Your task to perform on an android device: Clear the cart on ebay. Search for razer naga on ebay, select the first entry, add it to the cart, then select checkout. Image 0: 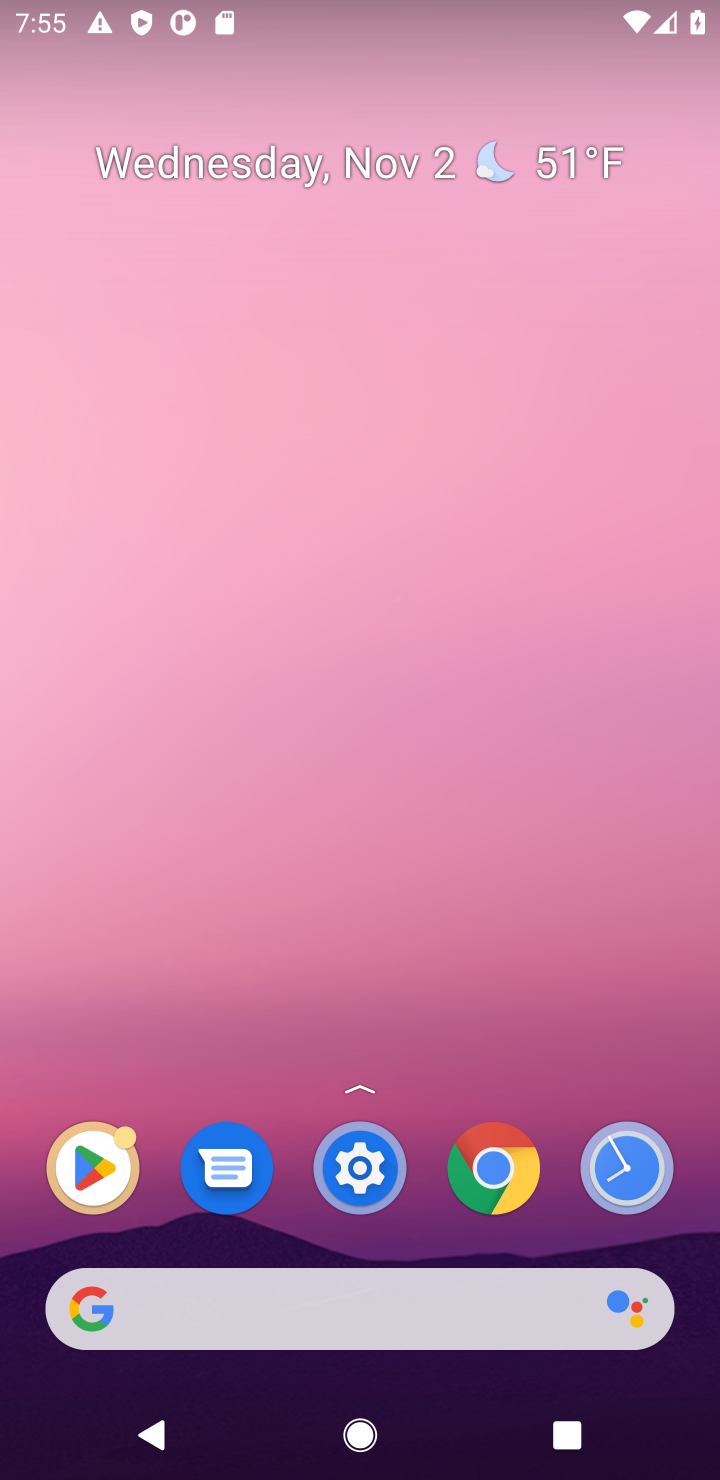
Step 0: click (443, 1295)
Your task to perform on an android device: Clear the cart on ebay. Search for razer naga on ebay, select the first entry, add it to the cart, then select checkout. Image 1: 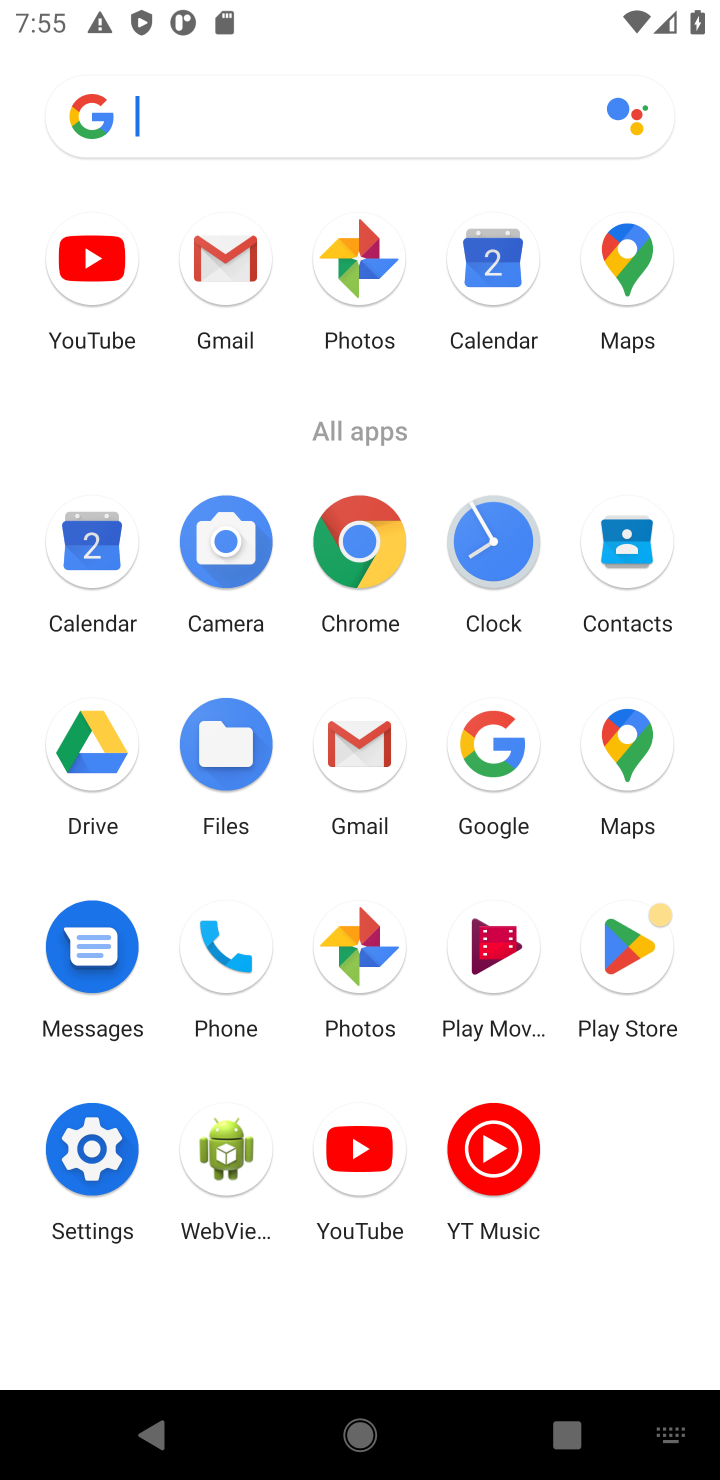
Step 1: type "ebay"
Your task to perform on an android device: Clear the cart on ebay. Search for razer naga on ebay, select the first entry, add it to the cart, then select checkout. Image 2: 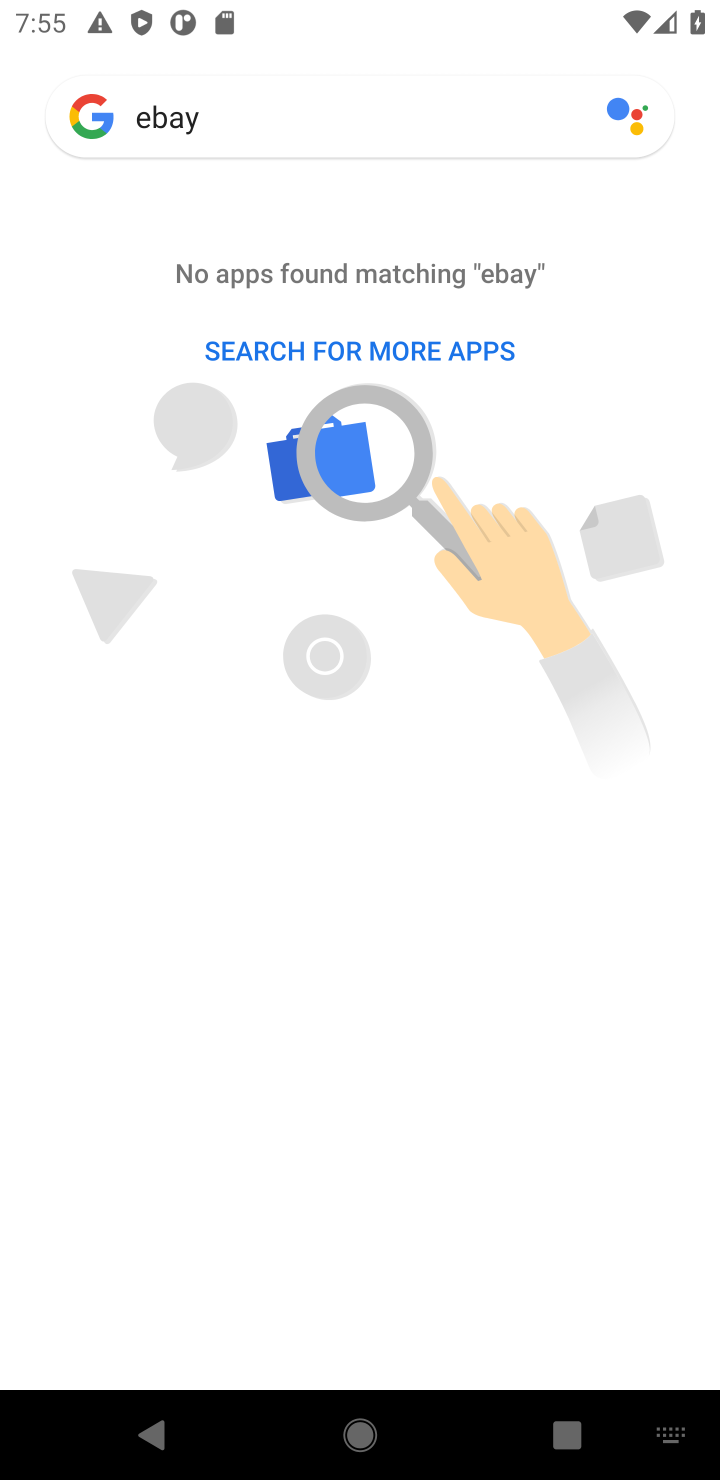
Step 2: type ""
Your task to perform on an android device: Clear the cart on ebay. Search for razer naga on ebay, select the first entry, add it to the cart, then select checkout. Image 3: 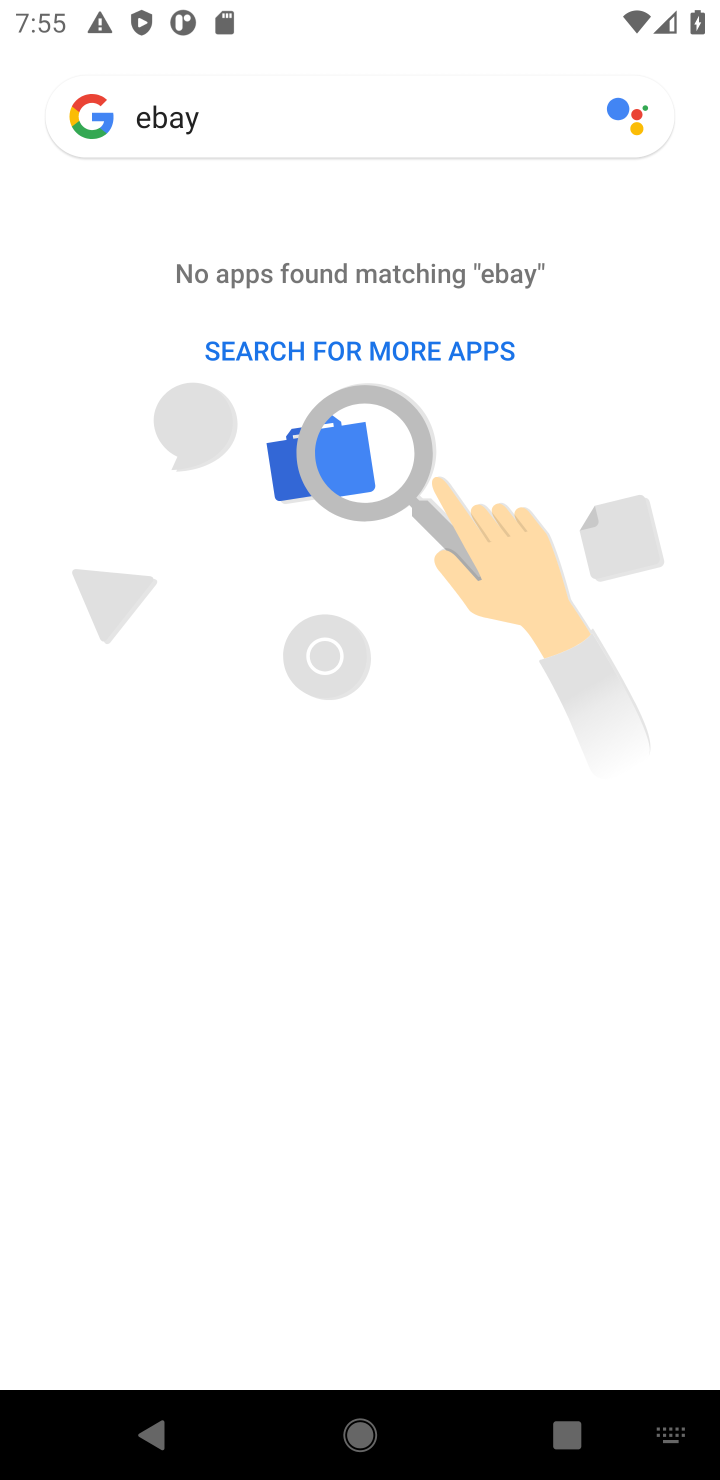
Step 3: press enter
Your task to perform on an android device: Clear the cart on ebay. Search for razer naga on ebay, select the first entry, add it to the cart, then select checkout. Image 4: 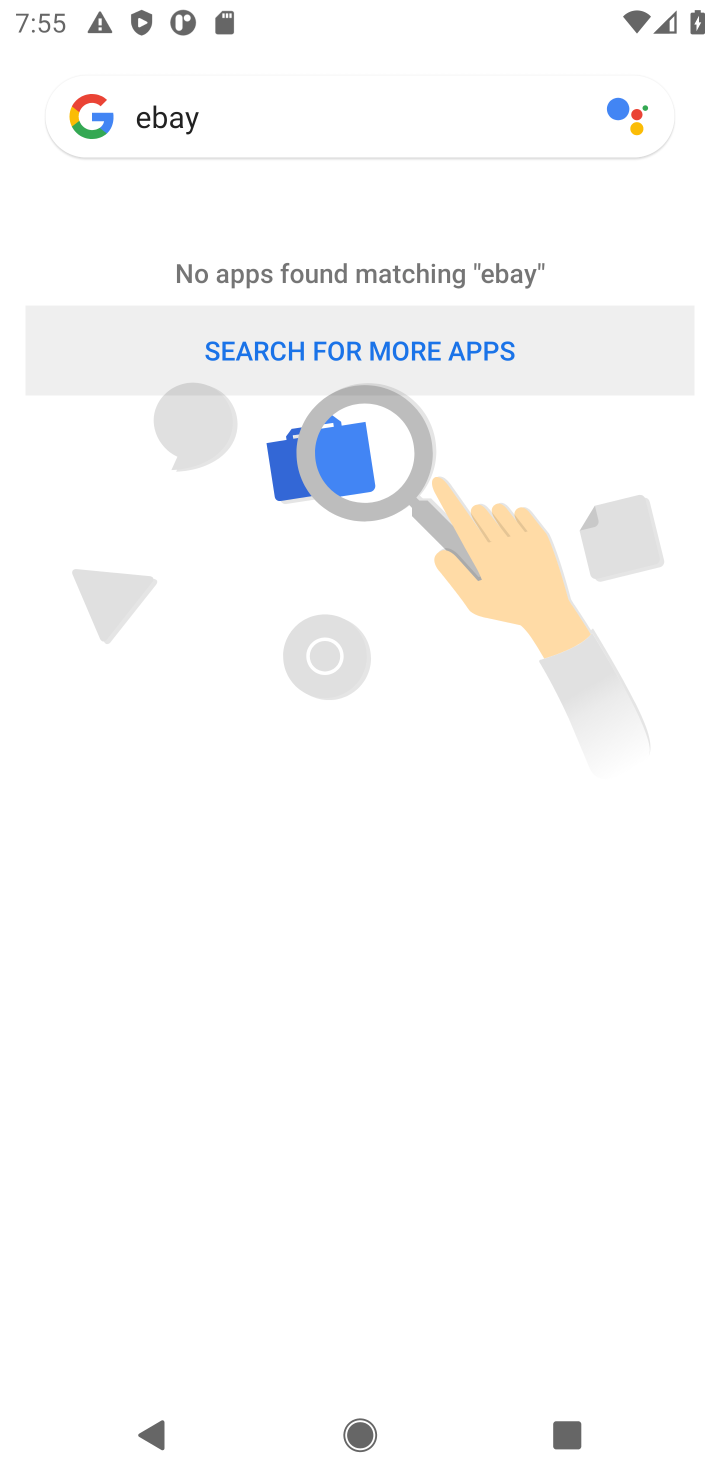
Step 4: press enter
Your task to perform on an android device: Clear the cart on ebay. Search for razer naga on ebay, select the first entry, add it to the cart, then select checkout. Image 5: 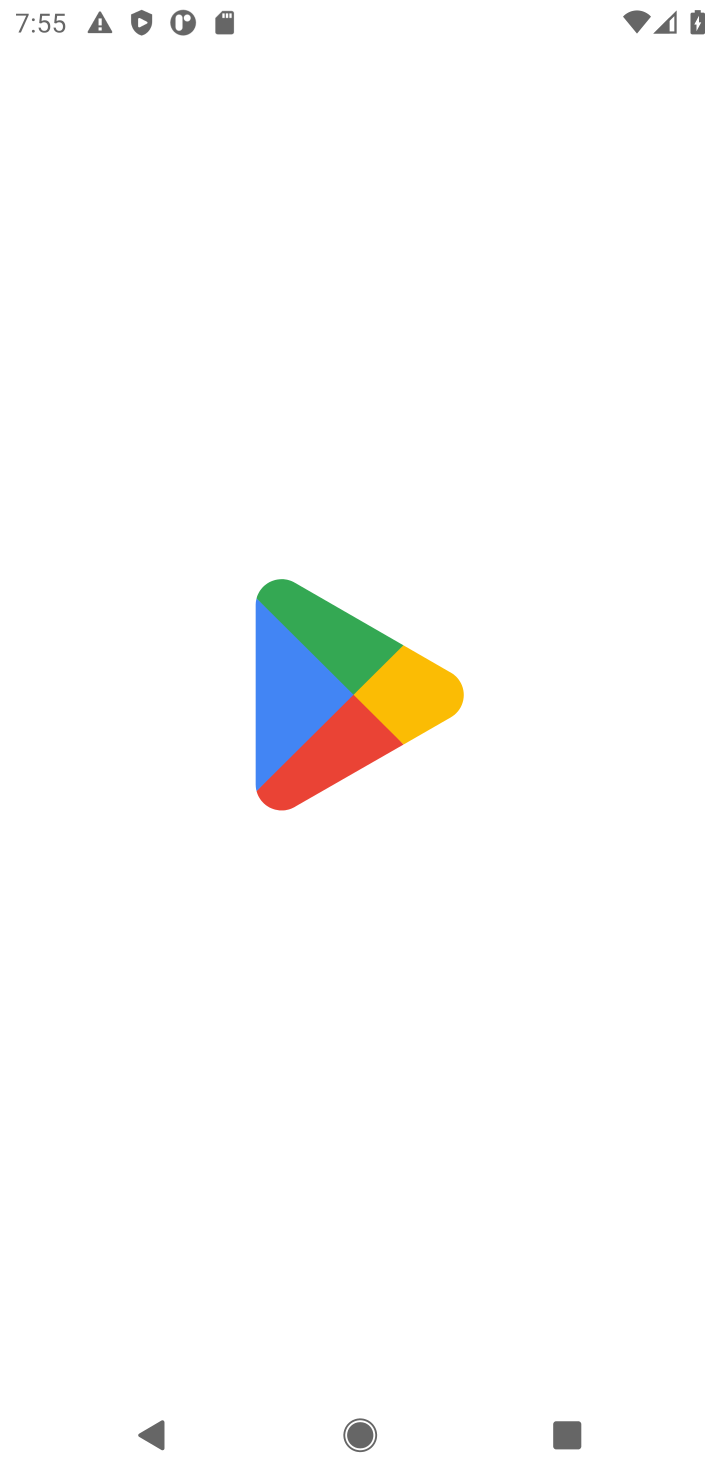
Step 5: press enter
Your task to perform on an android device: Clear the cart on ebay. Search for razer naga on ebay, select the first entry, add it to the cart, then select checkout. Image 6: 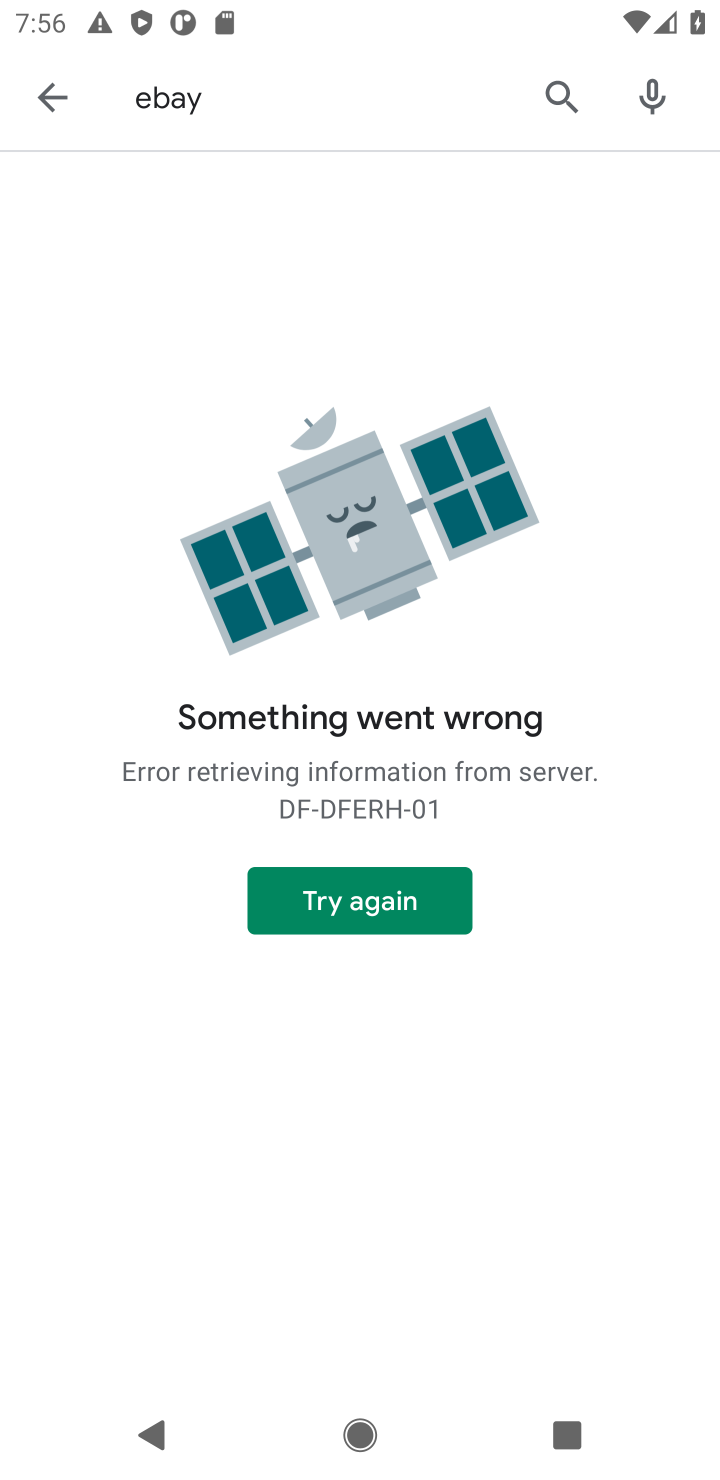
Step 6: press home button
Your task to perform on an android device: Clear the cart on ebay. Search for razer naga on ebay, select the first entry, add it to the cart, then select checkout. Image 7: 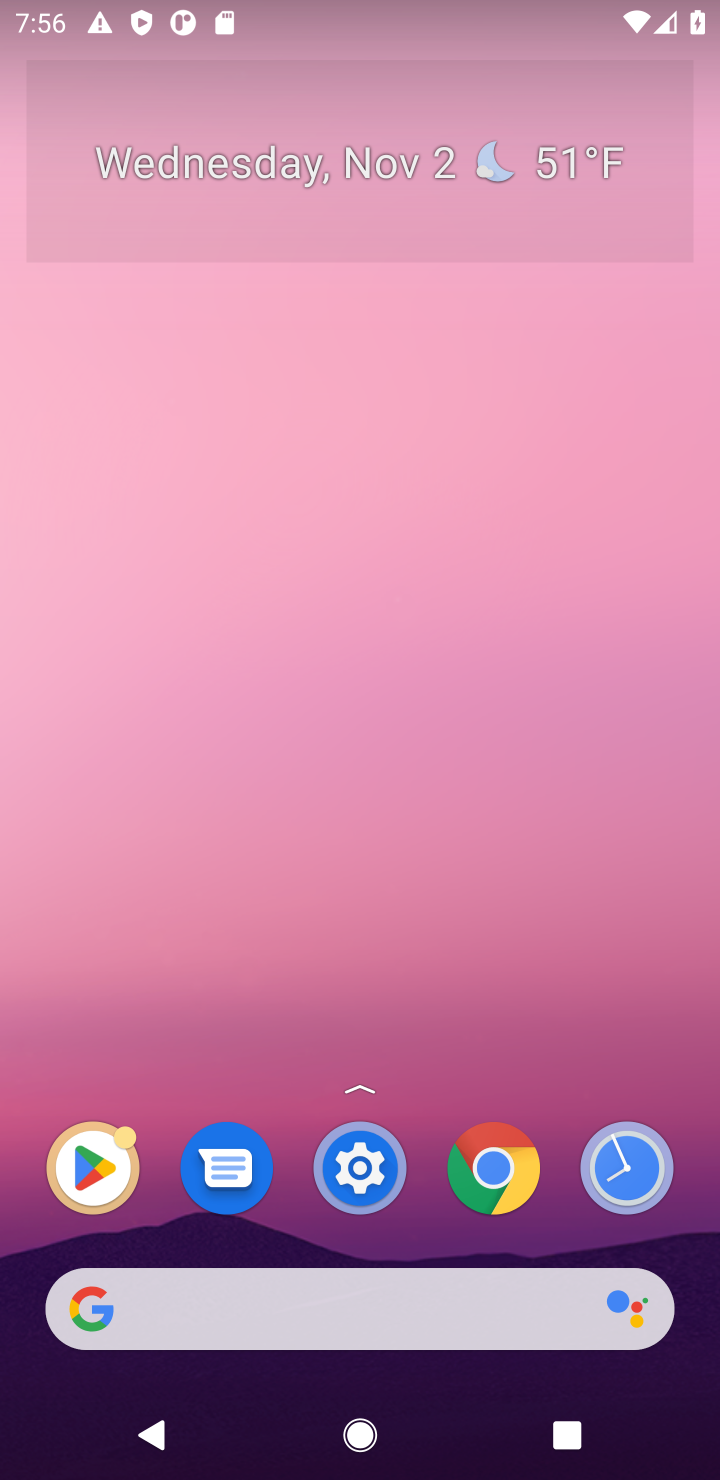
Step 7: click (280, 1294)
Your task to perform on an android device: Clear the cart on ebay. Search for razer naga on ebay, select the first entry, add it to the cart, then select checkout. Image 8: 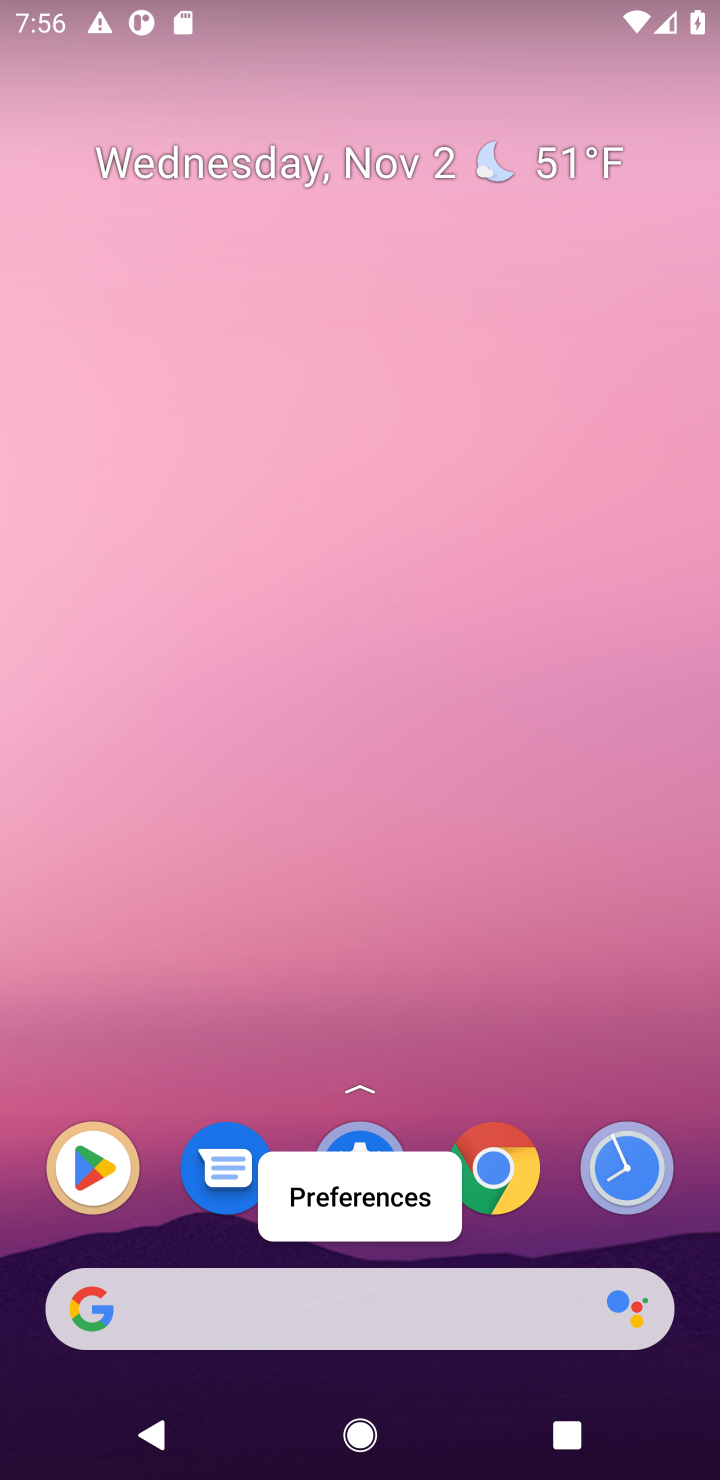
Step 8: click (277, 1307)
Your task to perform on an android device: Clear the cart on ebay. Search for razer naga on ebay, select the first entry, add it to the cart, then select checkout. Image 9: 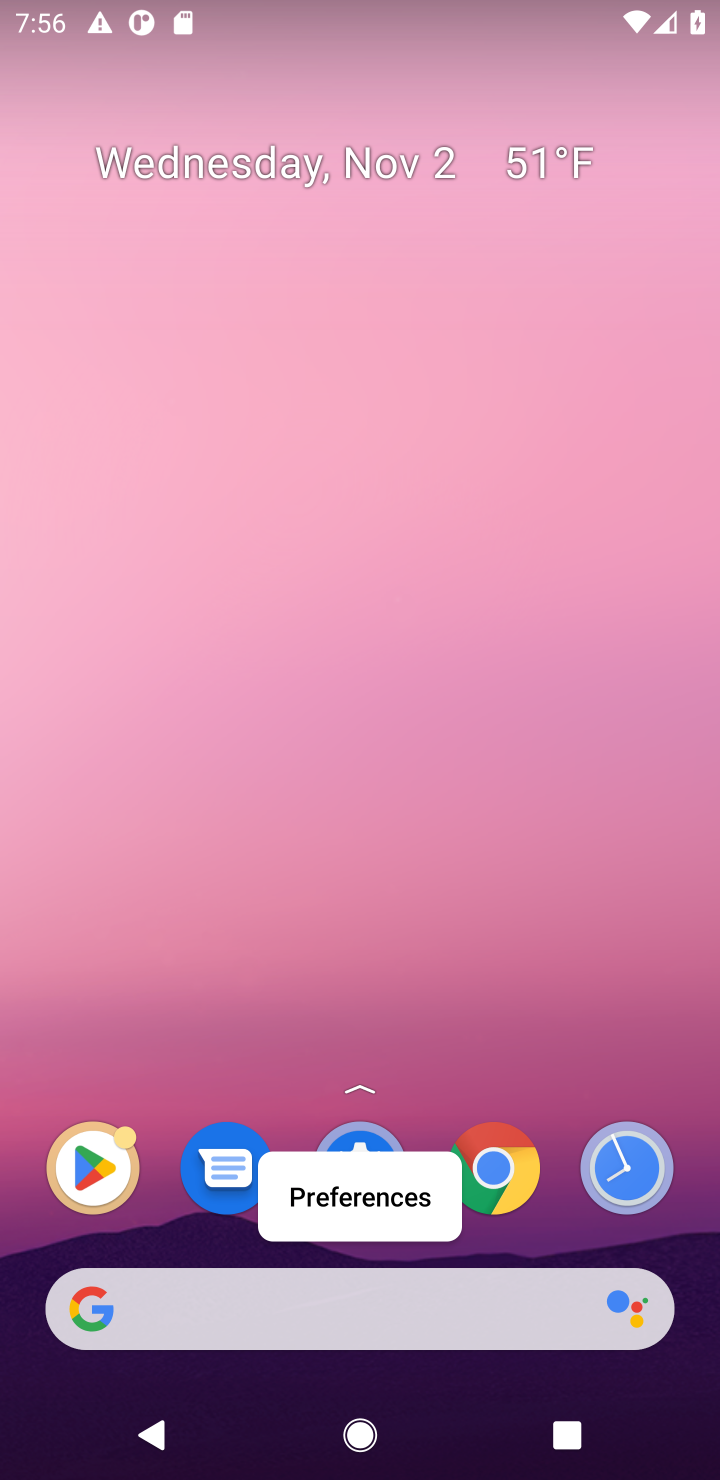
Step 9: click (277, 1307)
Your task to perform on an android device: Clear the cart on ebay. Search for razer naga on ebay, select the first entry, add it to the cart, then select checkout. Image 10: 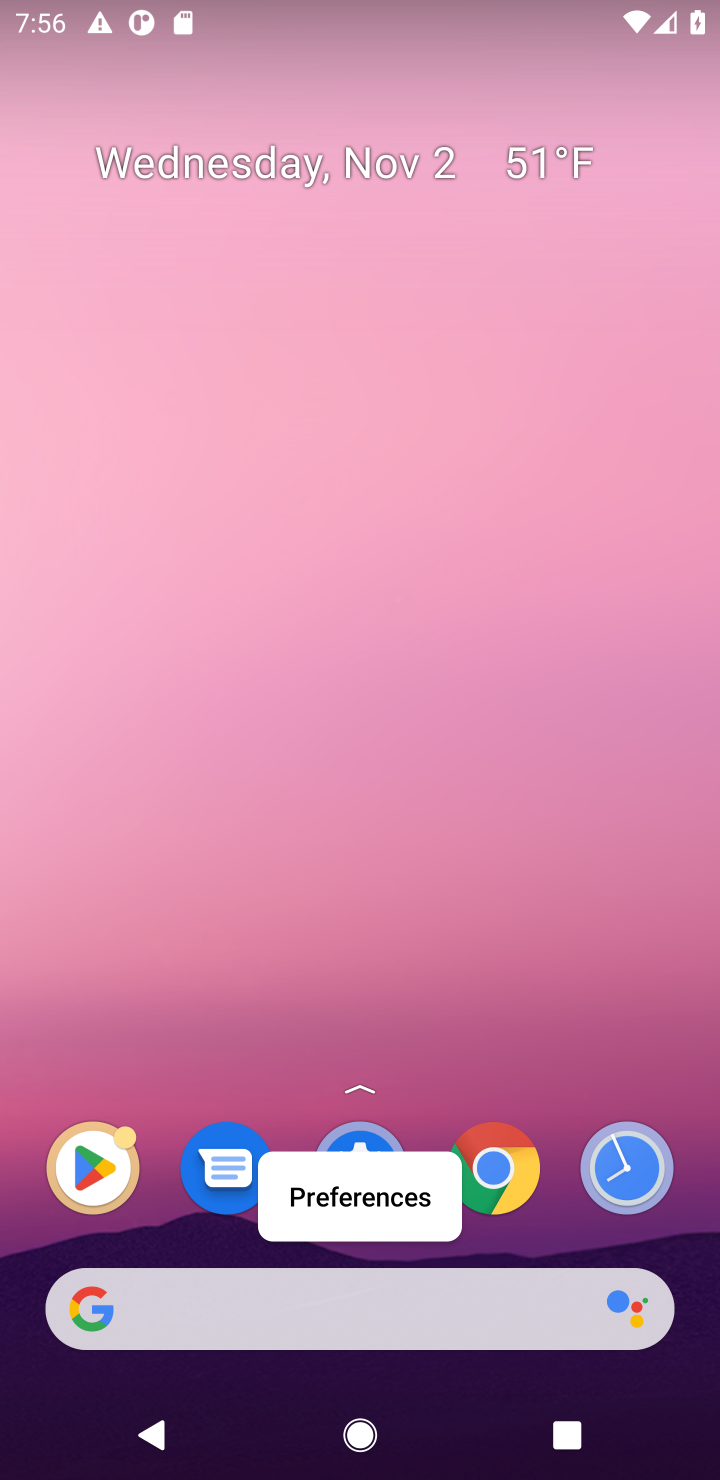
Step 10: click (277, 1307)
Your task to perform on an android device: Clear the cart on ebay. Search for razer naga on ebay, select the first entry, add it to the cart, then select checkout. Image 11: 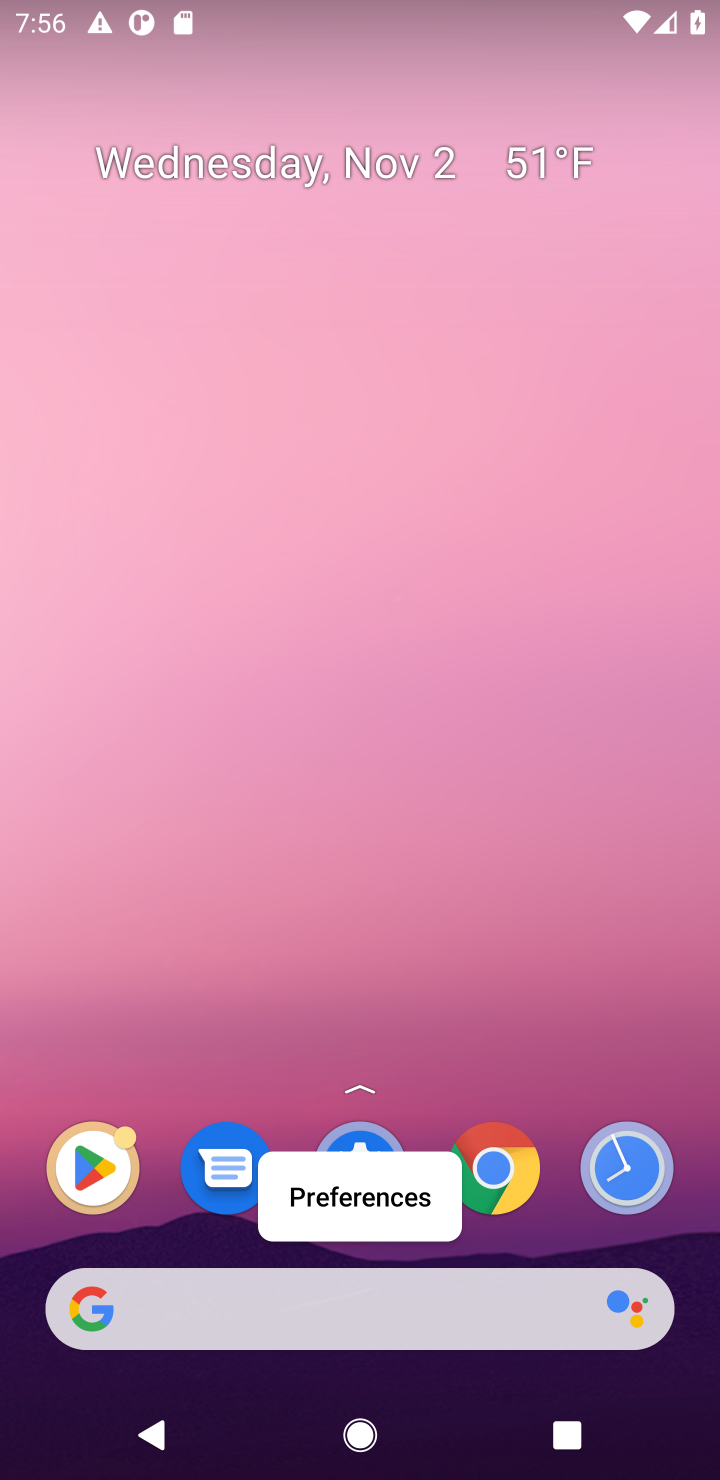
Step 11: click (277, 1307)
Your task to perform on an android device: Clear the cart on ebay. Search for razer naga on ebay, select the first entry, add it to the cart, then select checkout. Image 12: 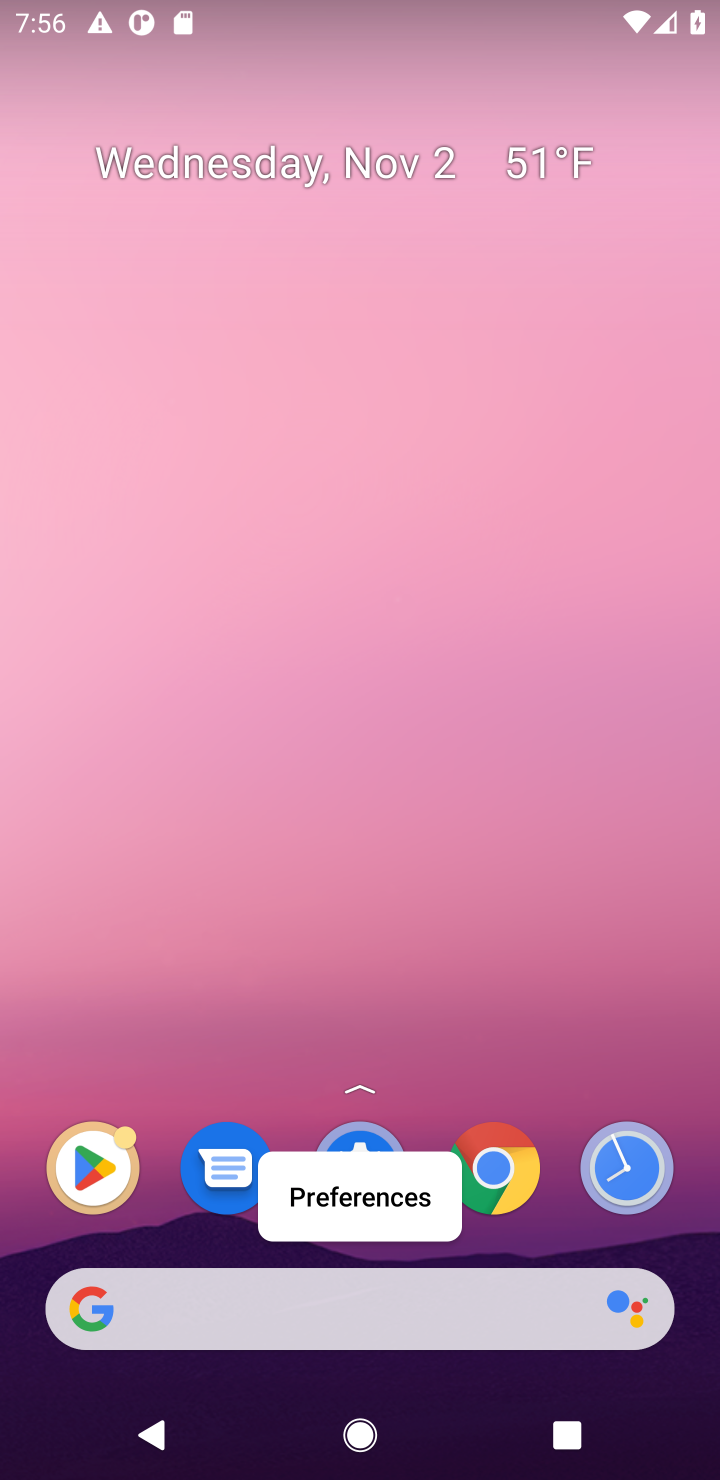
Step 12: click (277, 1307)
Your task to perform on an android device: Clear the cart on ebay. Search for razer naga on ebay, select the first entry, add it to the cart, then select checkout. Image 13: 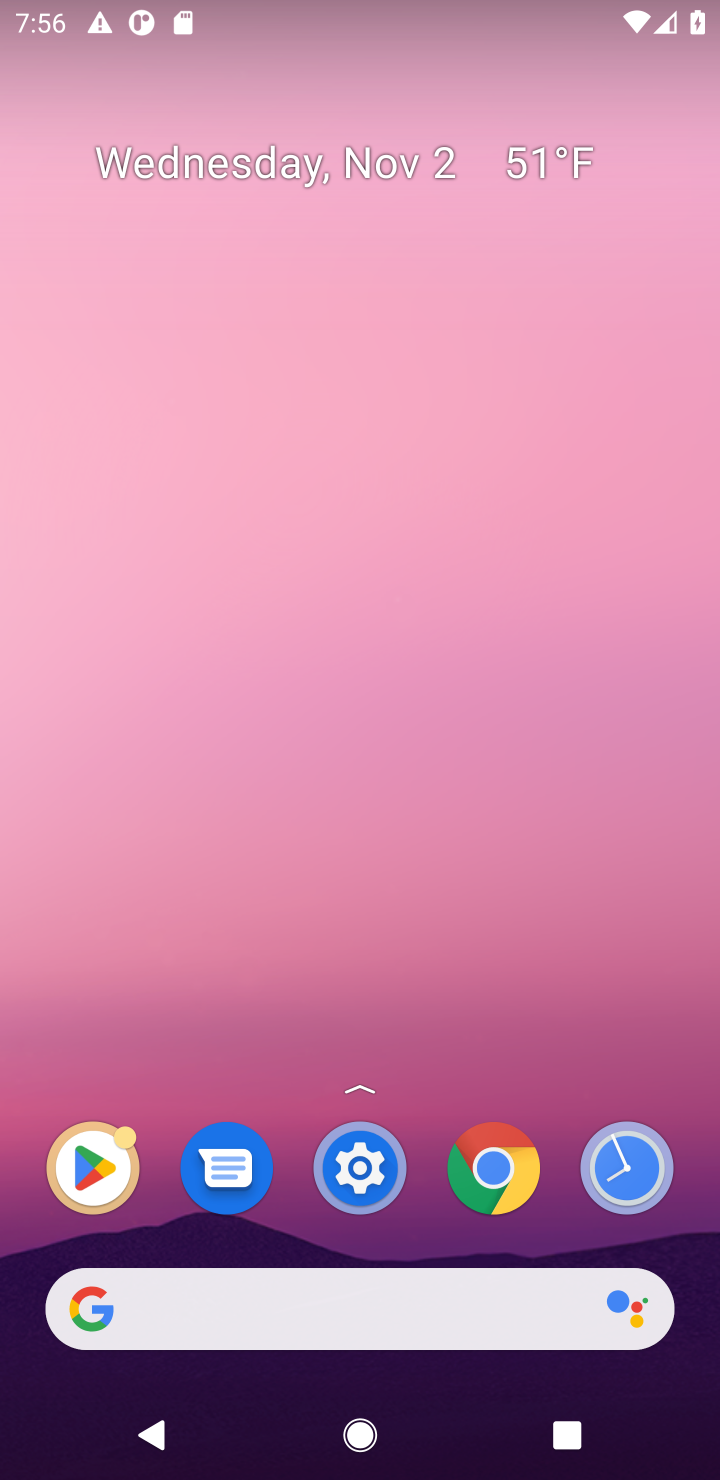
Step 13: click (275, 1309)
Your task to perform on an android device: Clear the cart on ebay. Search for razer naga on ebay, select the first entry, add it to the cart, then select checkout. Image 14: 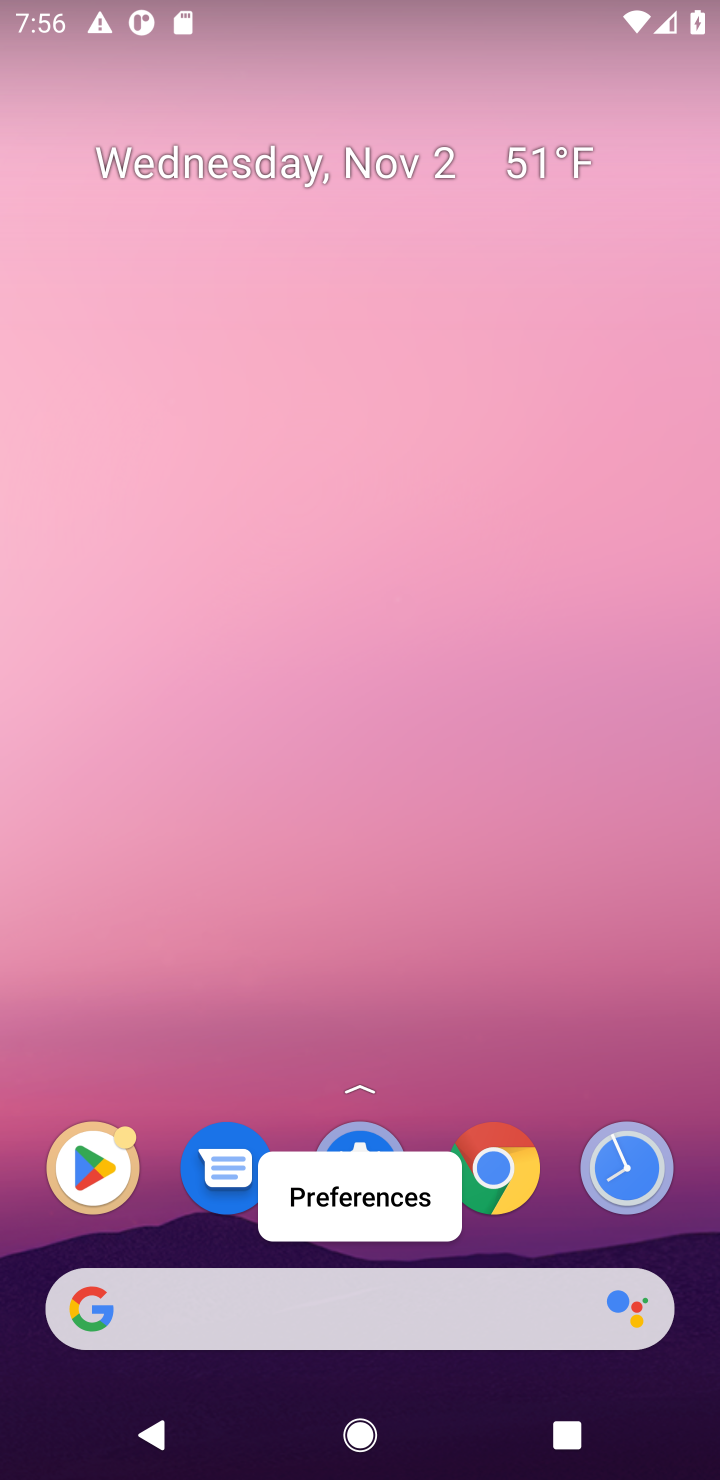
Step 14: click (468, 1164)
Your task to perform on an android device: Clear the cart on ebay. Search for razer naga on ebay, select the first entry, add it to the cart, then select checkout. Image 15: 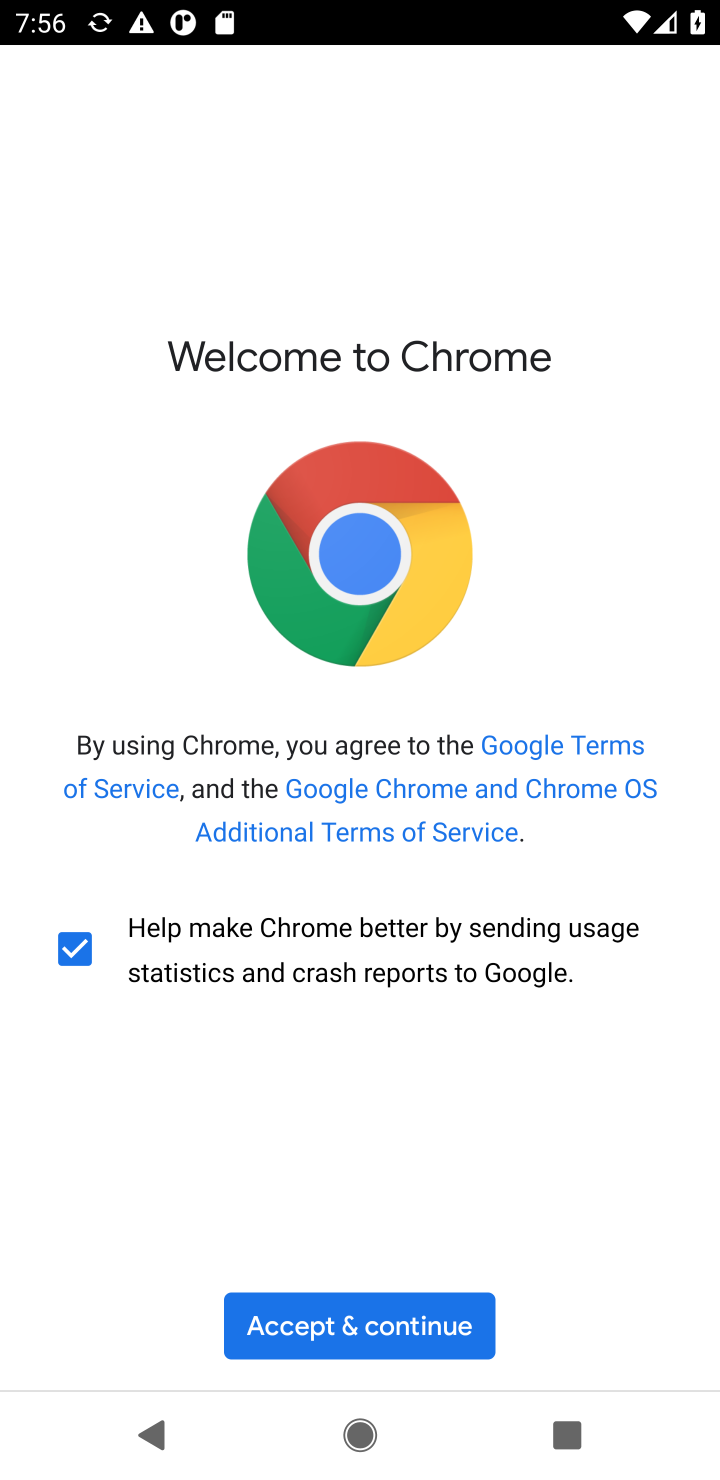
Step 15: click (458, 1310)
Your task to perform on an android device: Clear the cart on ebay. Search for razer naga on ebay, select the first entry, add it to the cart, then select checkout. Image 16: 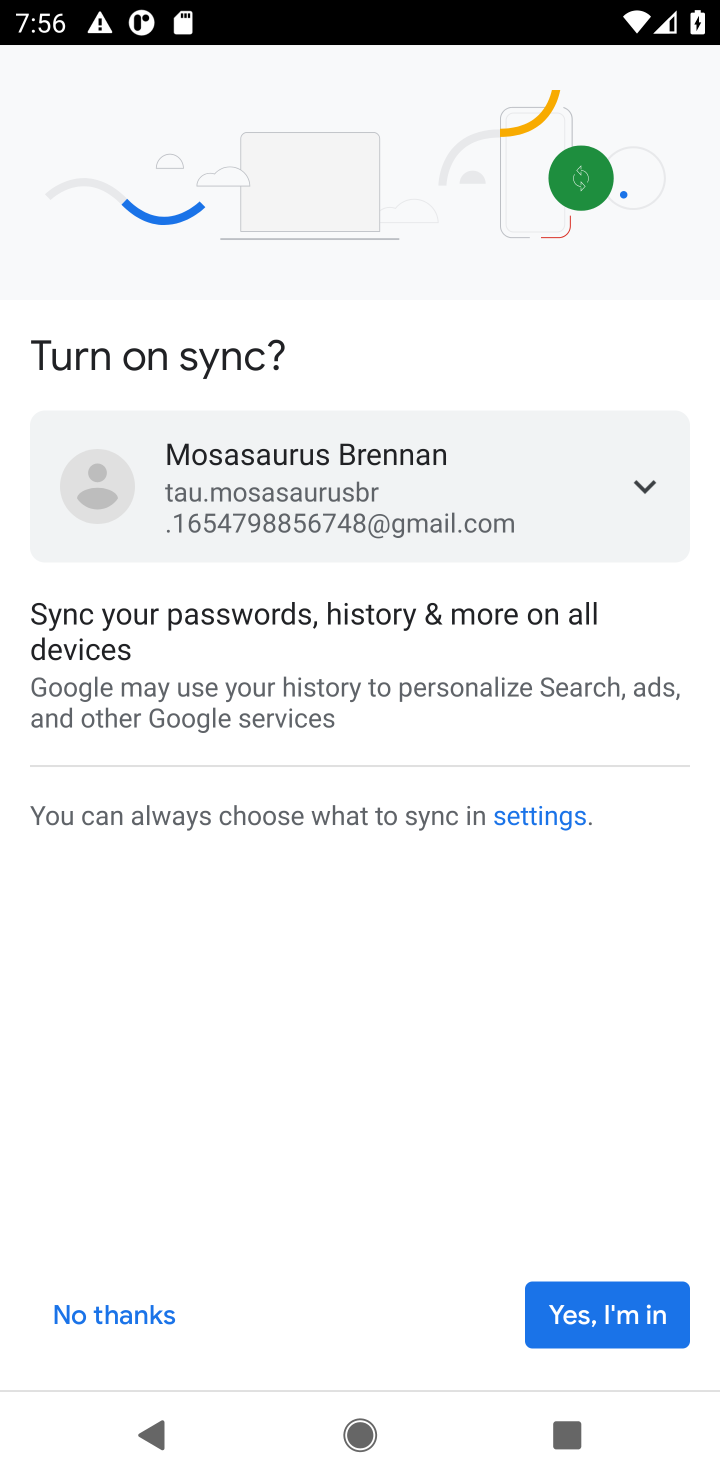
Step 16: click (577, 1305)
Your task to perform on an android device: Clear the cart on ebay. Search for razer naga on ebay, select the first entry, add it to the cart, then select checkout. Image 17: 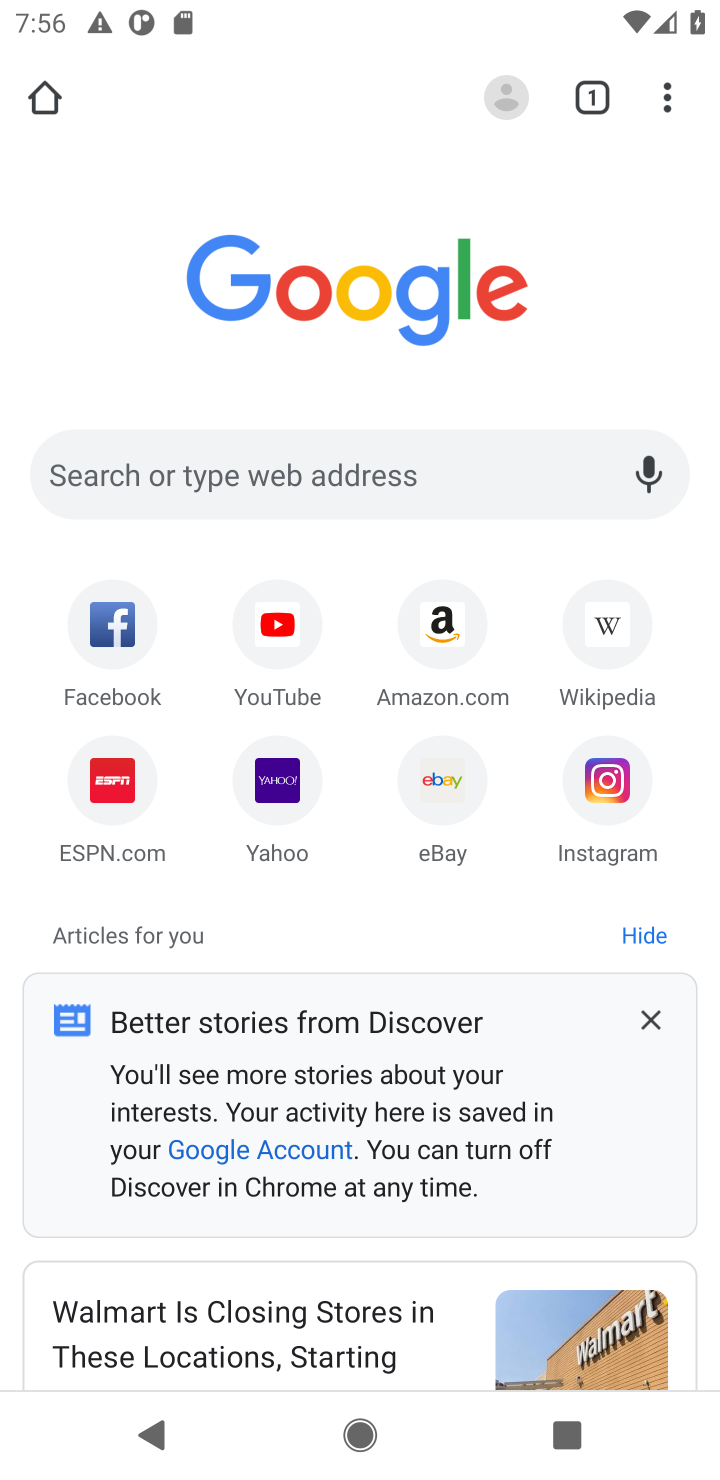
Step 17: click (274, 490)
Your task to perform on an android device: Clear the cart on ebay. Search for razer naga on ebay, select the first entry, add it to the cart, then select checkout. Image 18: 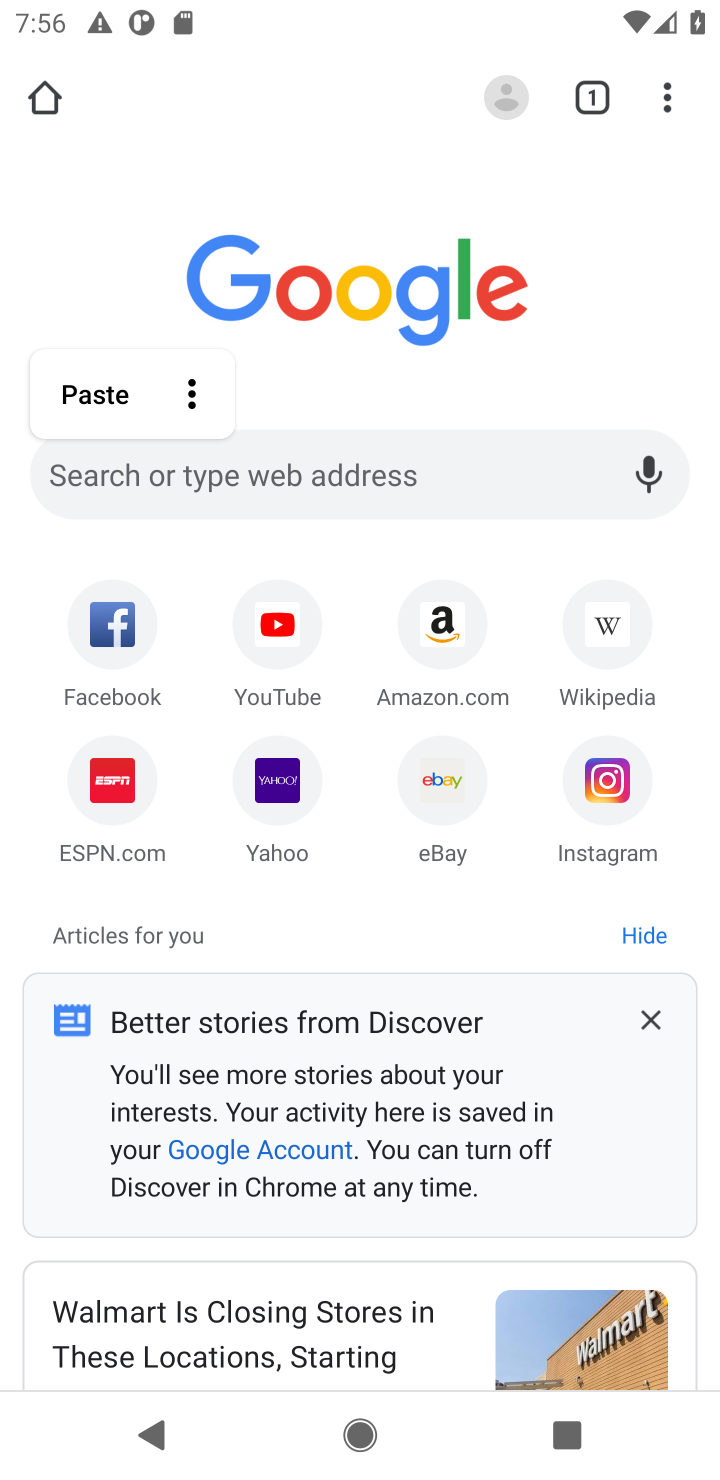
Step 18: type "ebay"
Your task to perform on an android device: Clear the cart on ebay. Search for razer naga on ebay, select the first entry, add it to the cart, then select checkout. Image 19: 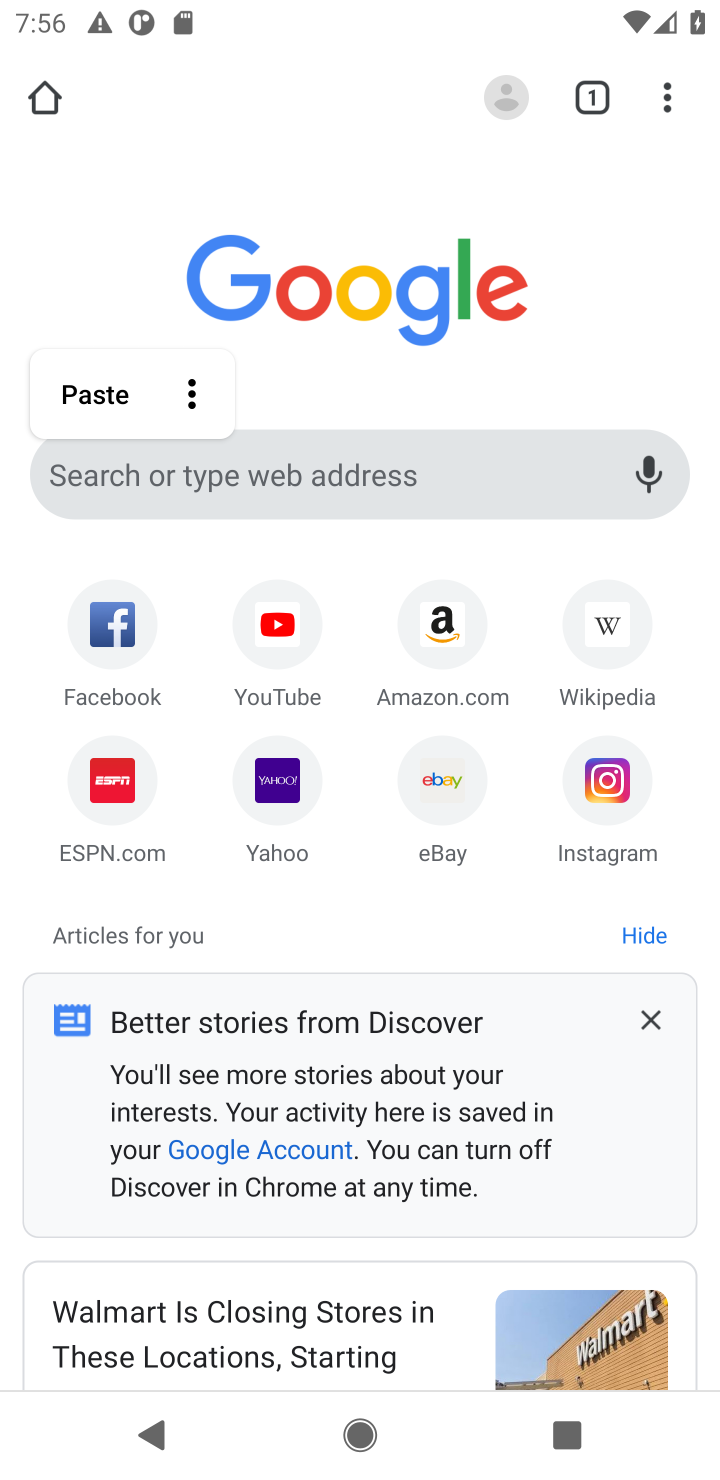
Step 19: type ""
Your task to perform on an android device: Clear the cart on ebay. Search for razer naga on ebay, select the first entry, add it to the cart, then select checkout. Image 20: 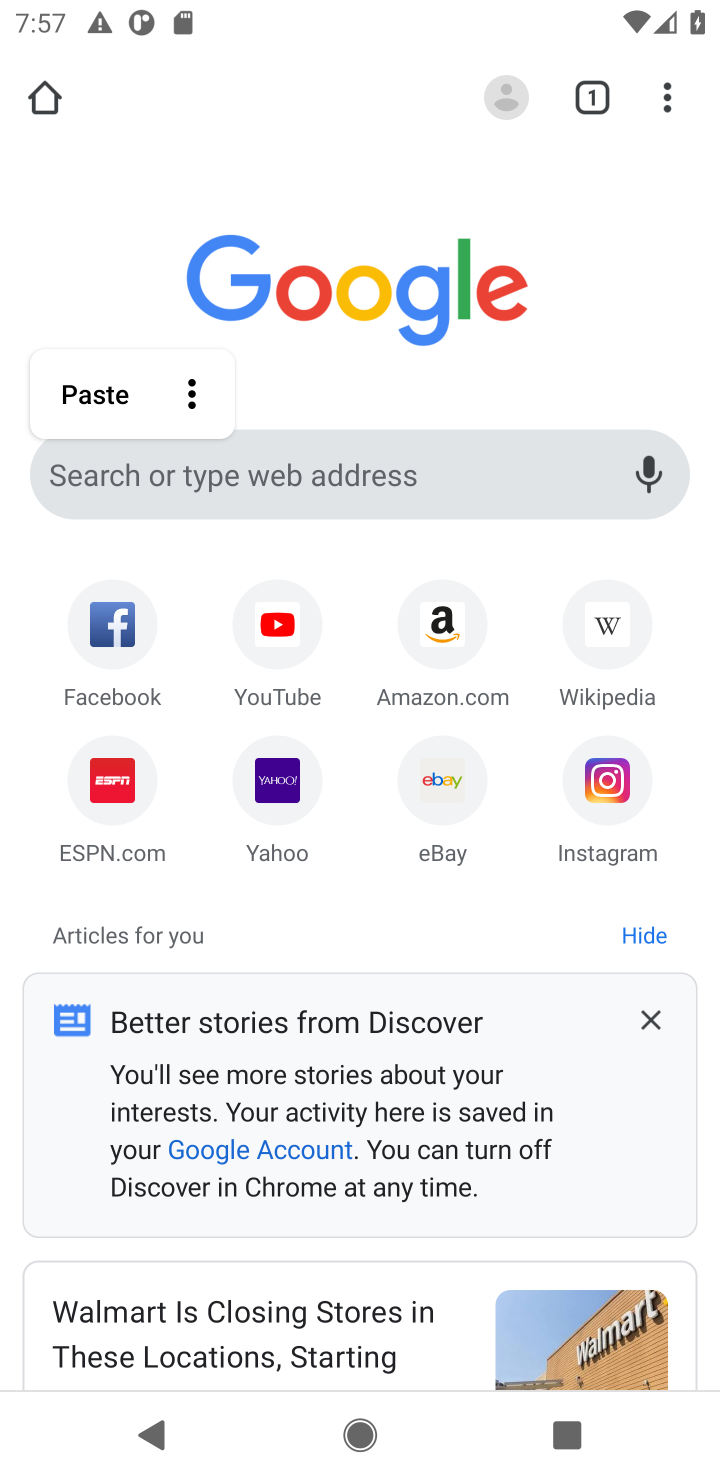
Step 20: type ""
Your task to perform on an android device: Clear the cart on ebay. Search for razer naga on ebay, select the first entry, add it to the cart, then select checkout. Image 21: 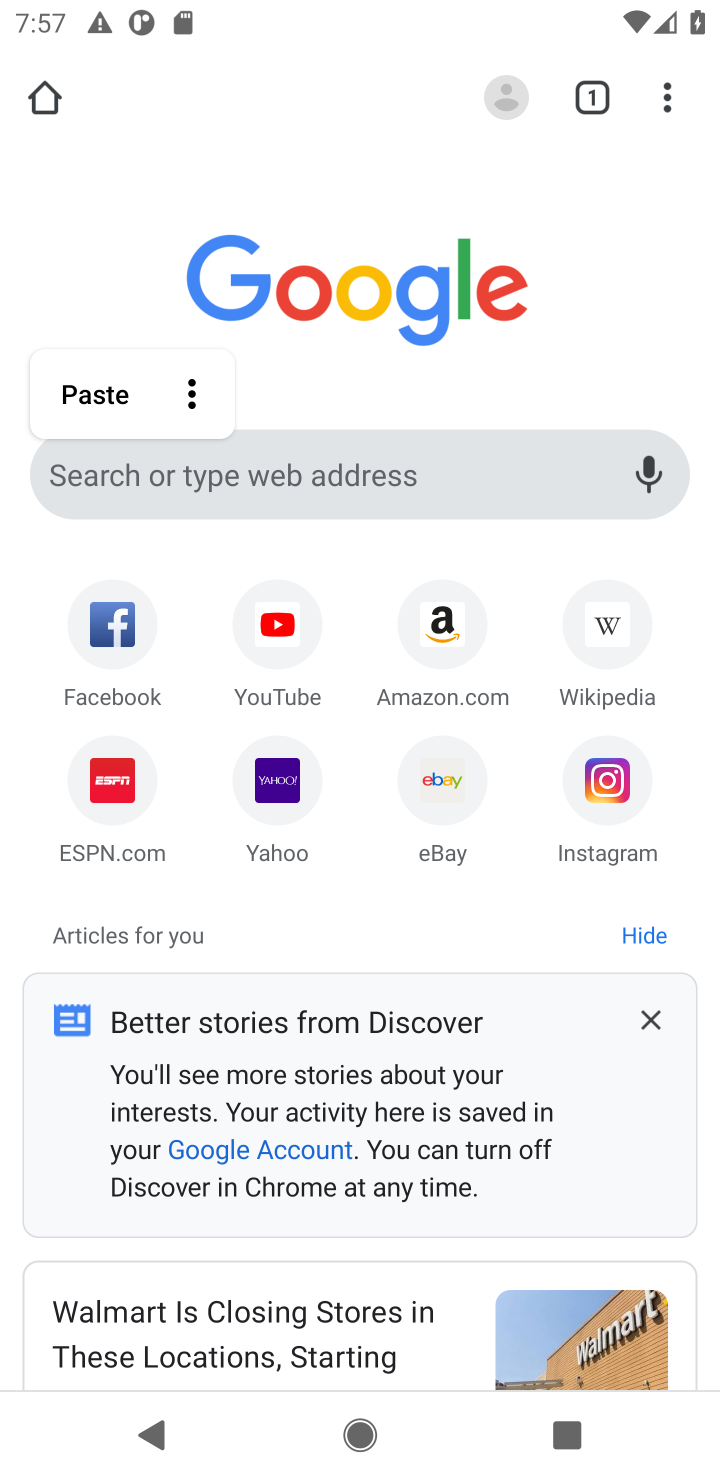
Step 21: press enter
Your task to perform on an android device: Clear the cart on ebay. Search for razer naga on ebay, select the first entry, add it to the cart, then select checkout. Image 22: 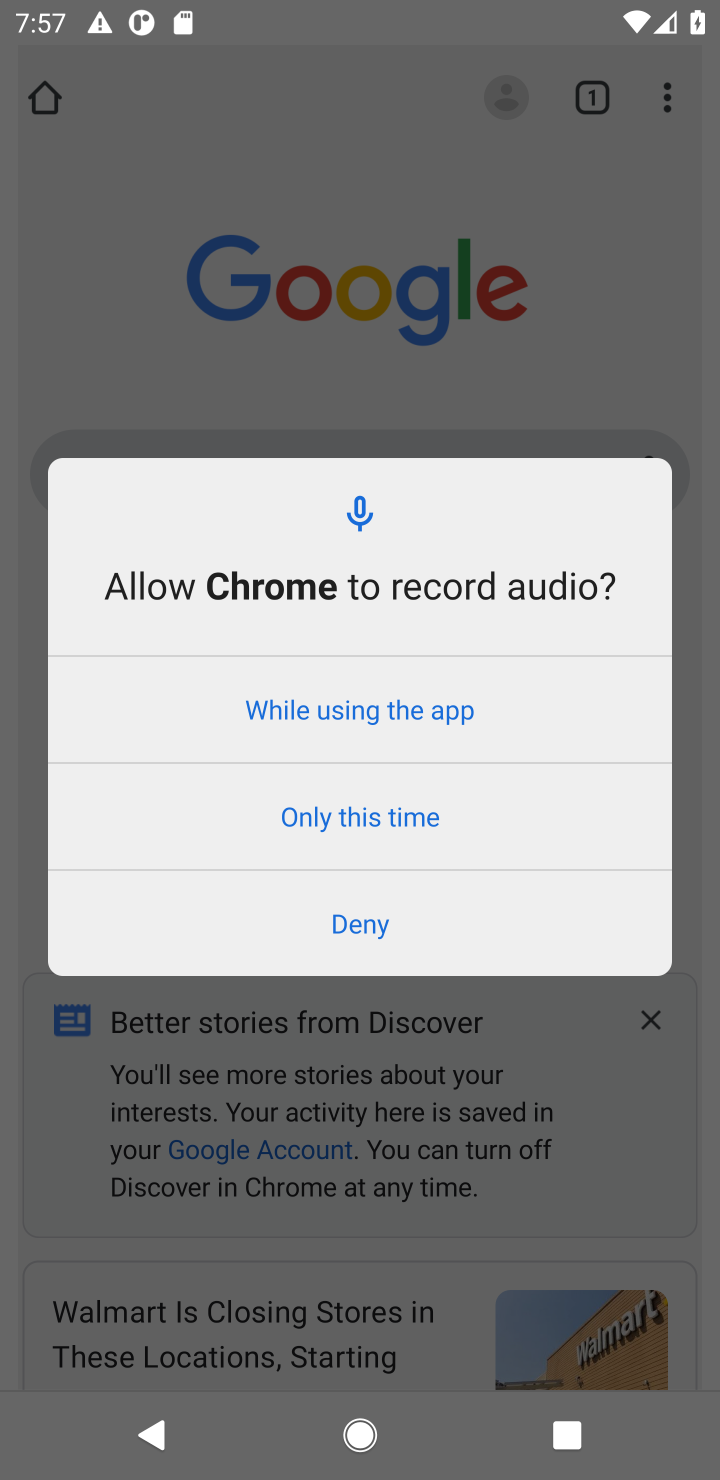
Step 22: click (375, 942)
Your task to perform on an android device: Clear the cart on ebay. Search for razer naga on ebay, select the first entry, add it to the cart, then select checkout. Image 23: 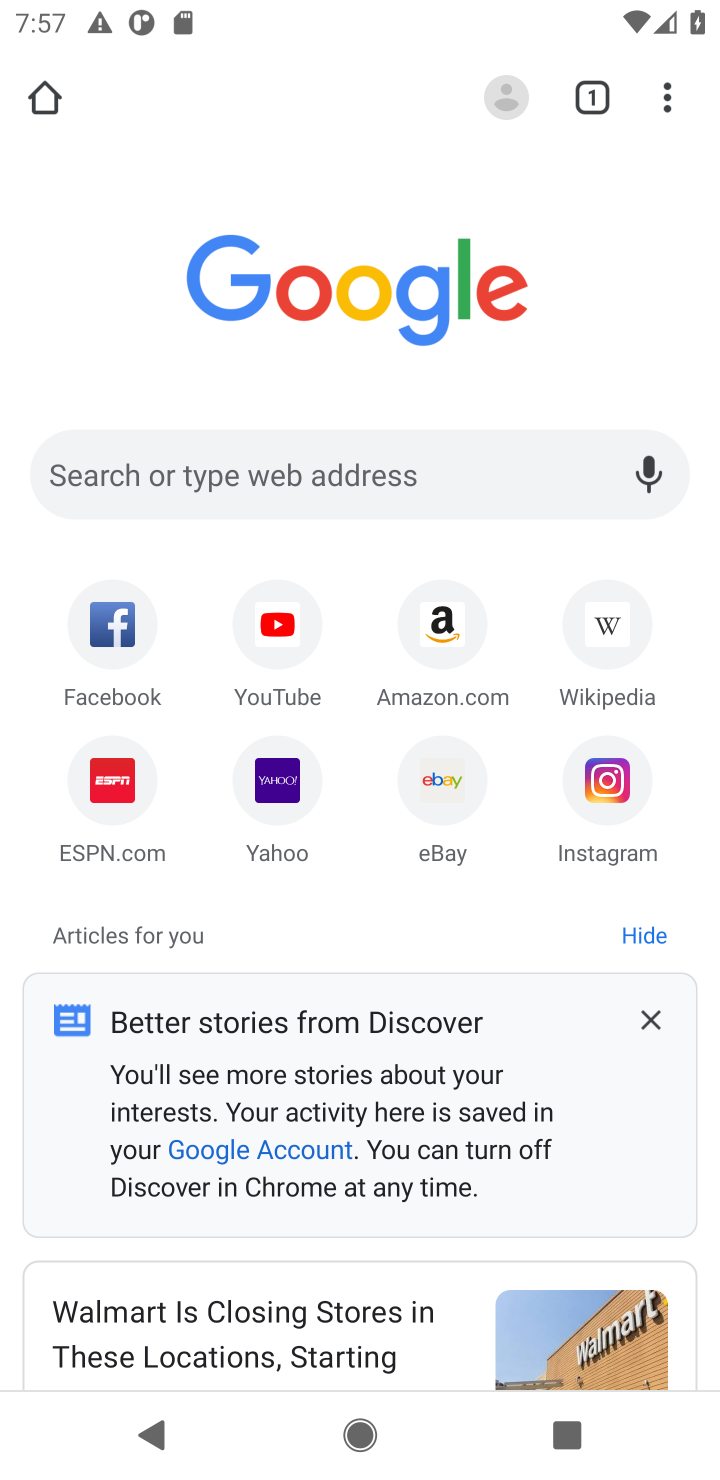
Step 23: click (97, 467)
Your task to perform on an android device: Clear the cart on ebay. Search for razer naga on ebay, select the first entry, add it to the cart, then select checkout. Image 24: 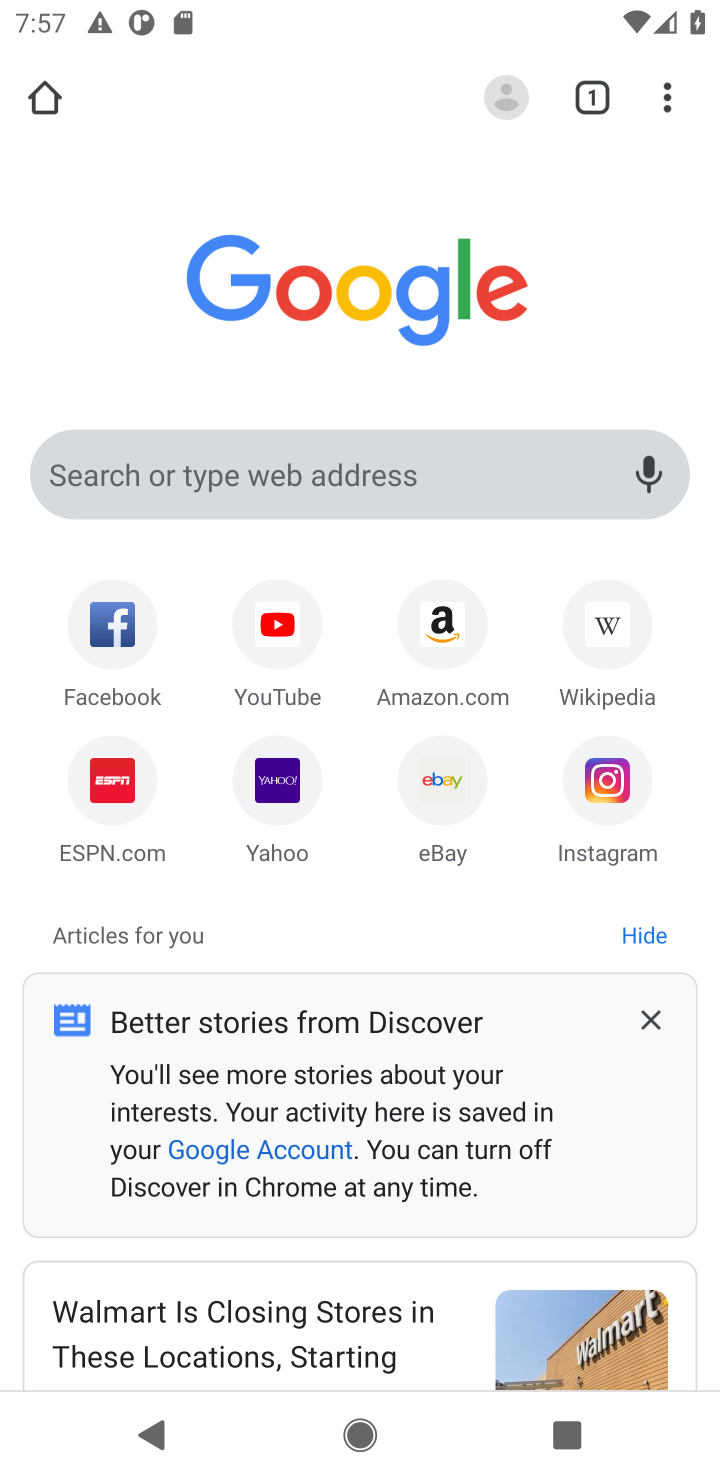
Step 24: click (97, 467)
Your task to perform on an android device: Clear the cart on ebay. Search for razer naga on ebay, select the first entry, add it to the cart, then select checkout. Image 25: 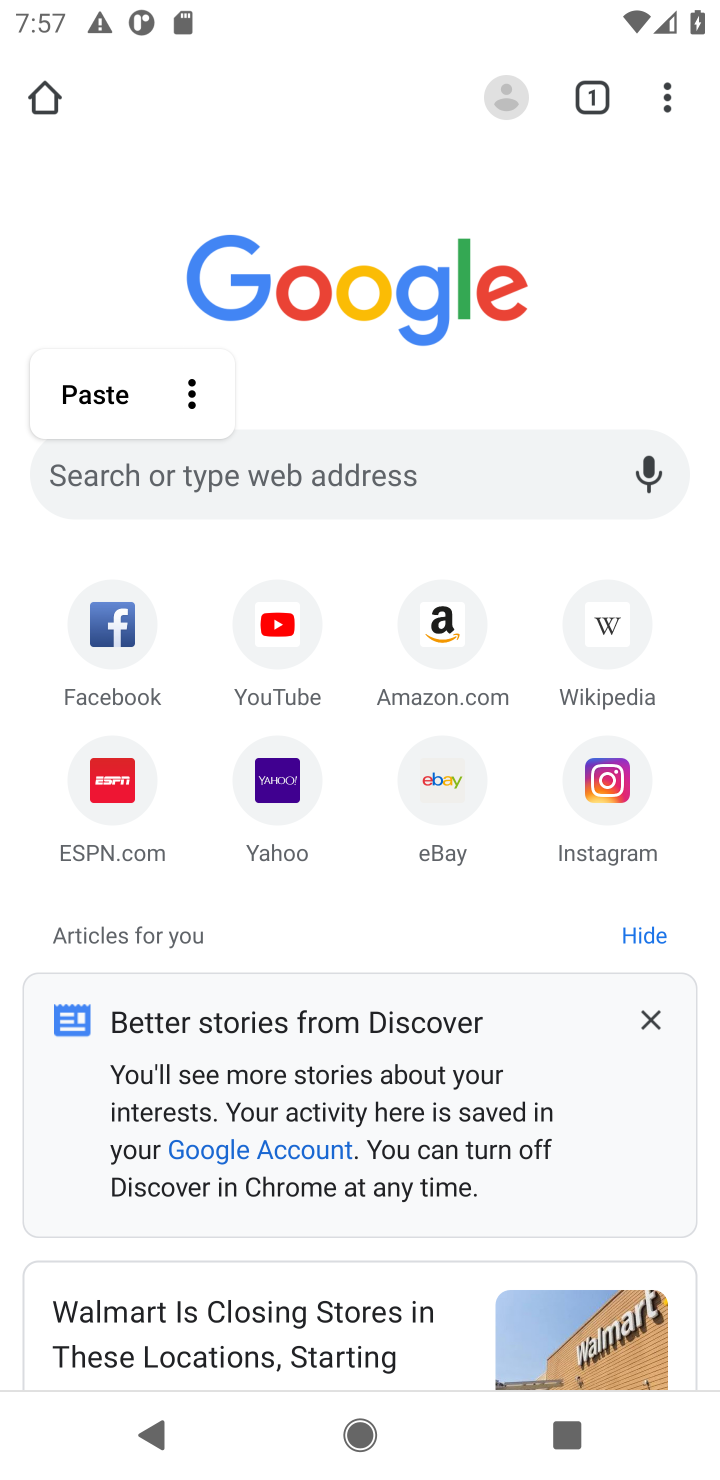
Step 25: type "ebay"
Your task to perform on an android device: Clear the cart on ebay. Search for razer naga on ebay, select the first entry, add it to the cart, then select checkout. Image 26: 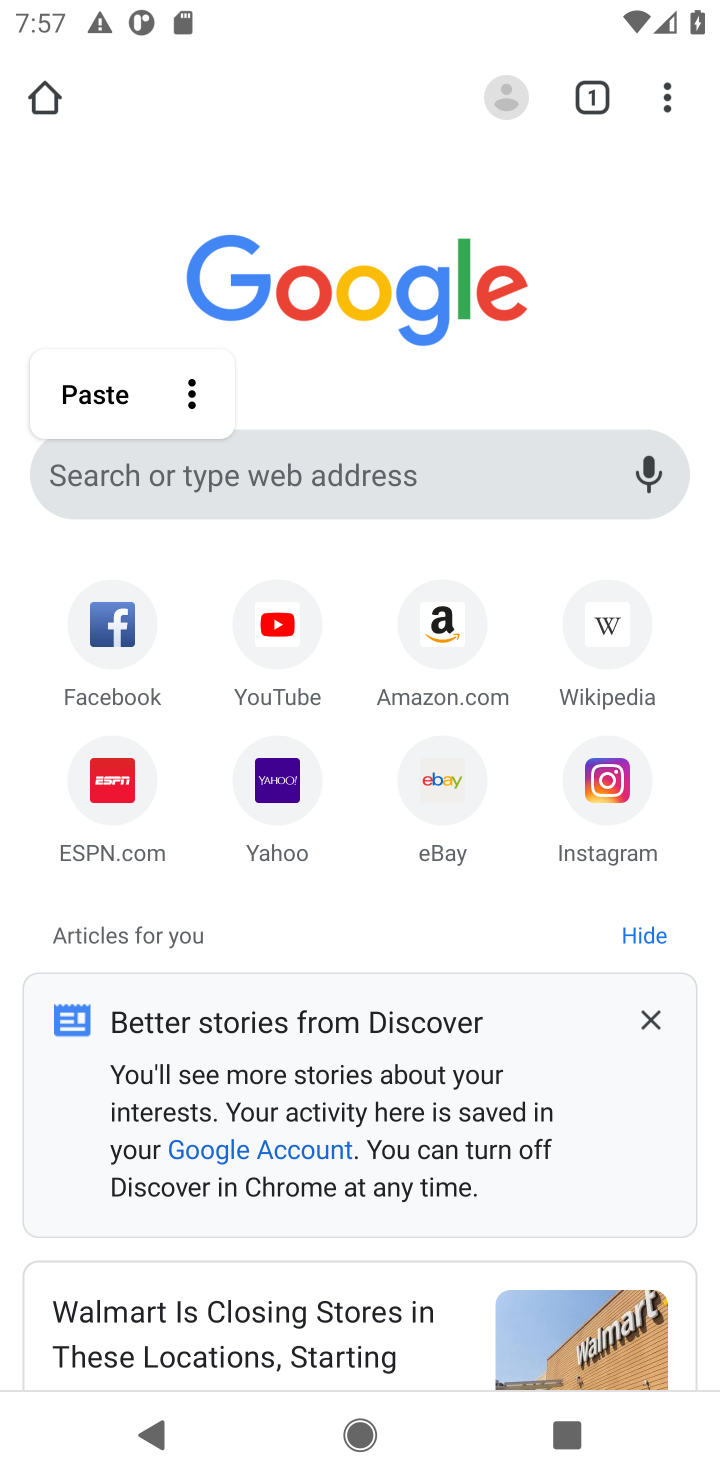
Step 26: press enter
Your task to perform on an android device: Clear the cart on ebay. Search for razer naga on ebay, select the first entry, add it to the cart, then select checkout. Image 27: 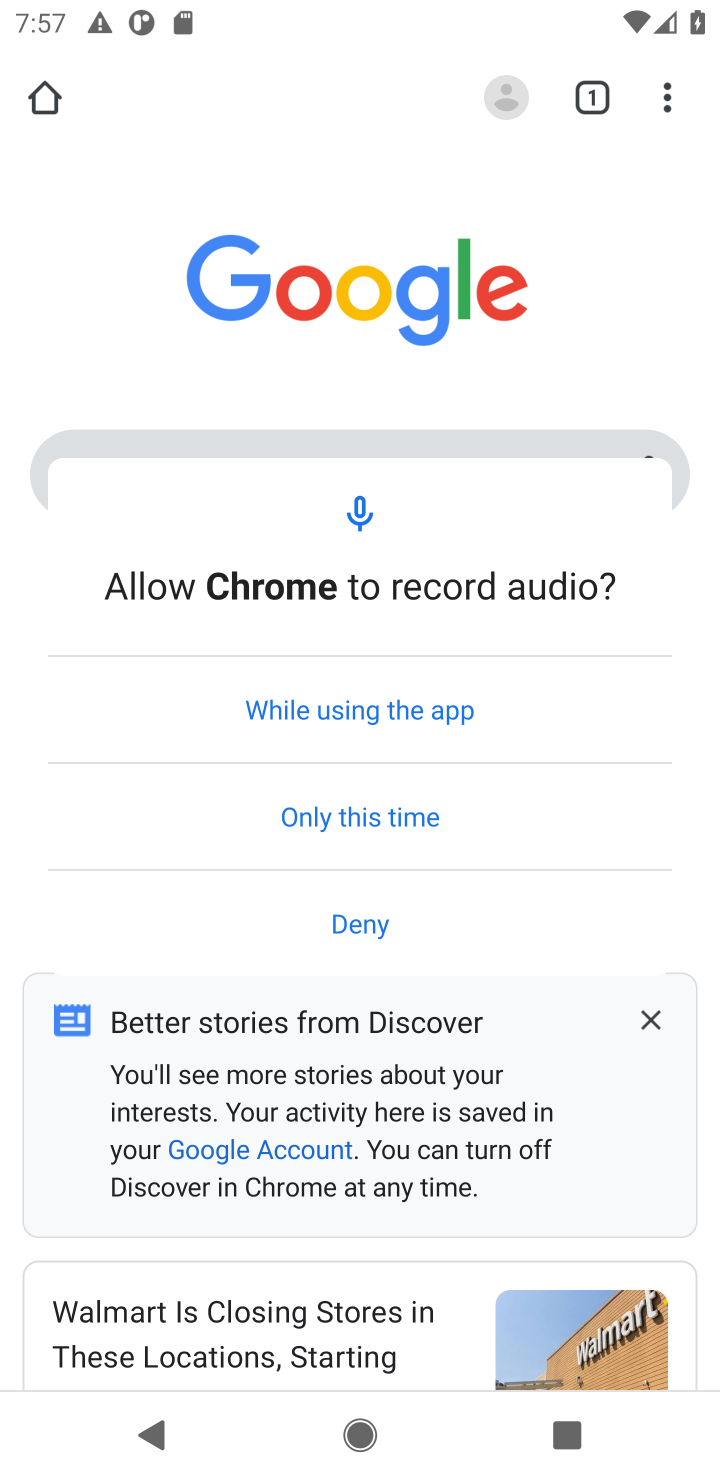
Step 27: click (269, 488)
Your task to perform on an android device: Clear the cart on ebay. Search for razer naga on ebay, select the first entry, add it to the cart, then select checkout. Image 28: 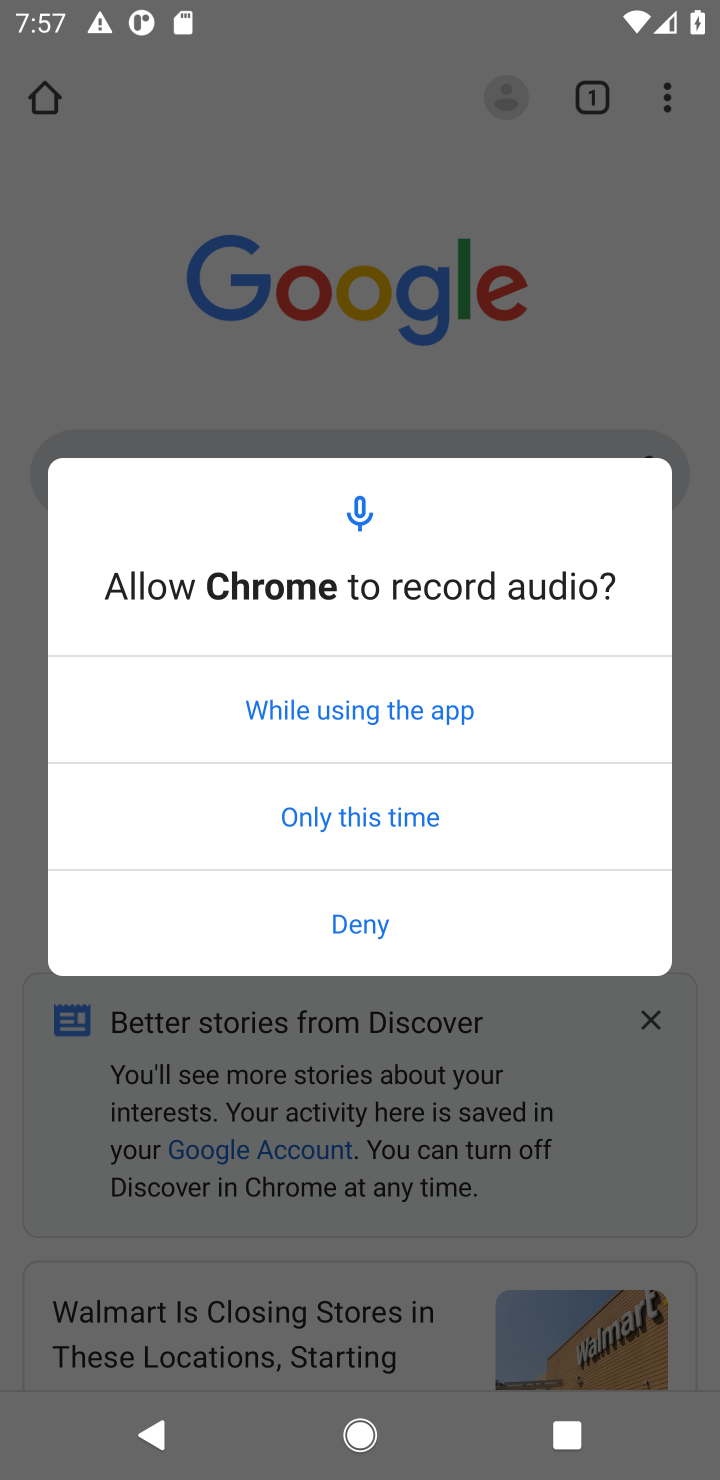
Step 28: click (393, 913)
Your task to perform on an android device: Clear the cart on ebay. Search for razer naga on ebay, select the first entry, add it to the cart, then select checkout. Image 29: 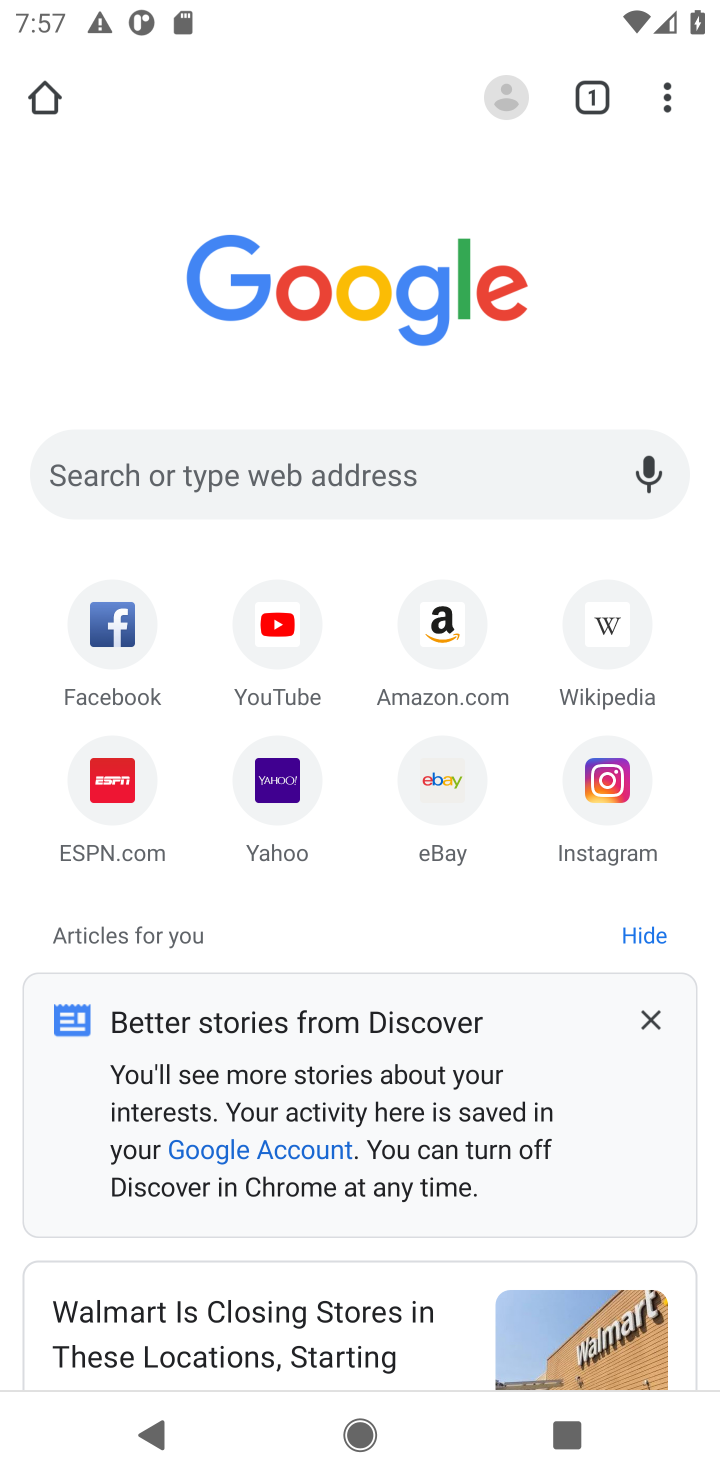
Step 29: click (425, 484)
Your task to perform on an android device: Clear the cart on ebay. Search for razer naga on ebay, select the first entry, add it to the cart, then select checkout. Image 30: 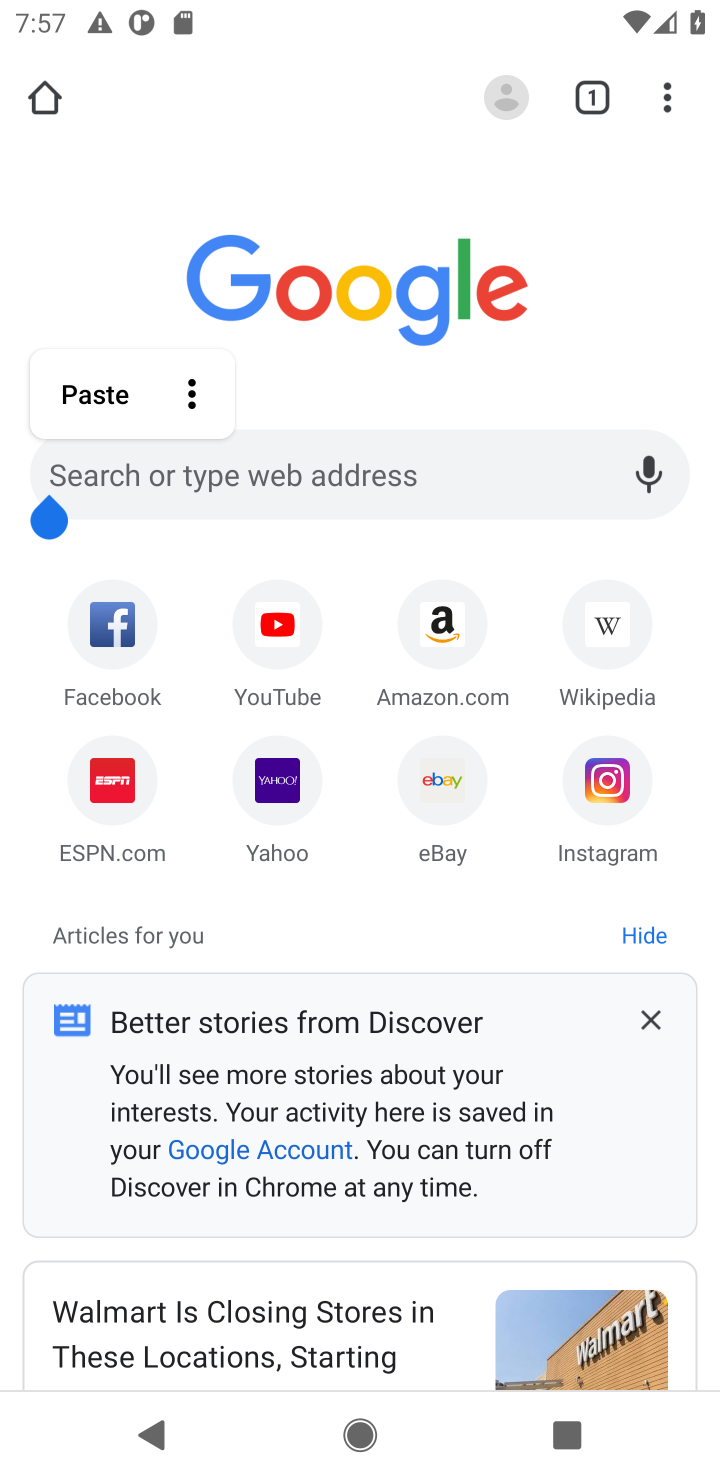
Step 30: click (308, 474)
Your task to perform on an android device: Clear the cart on ebay. Search for razer naga on ebay, select the first entry, add it to the cart, then select checkout. Image 31: 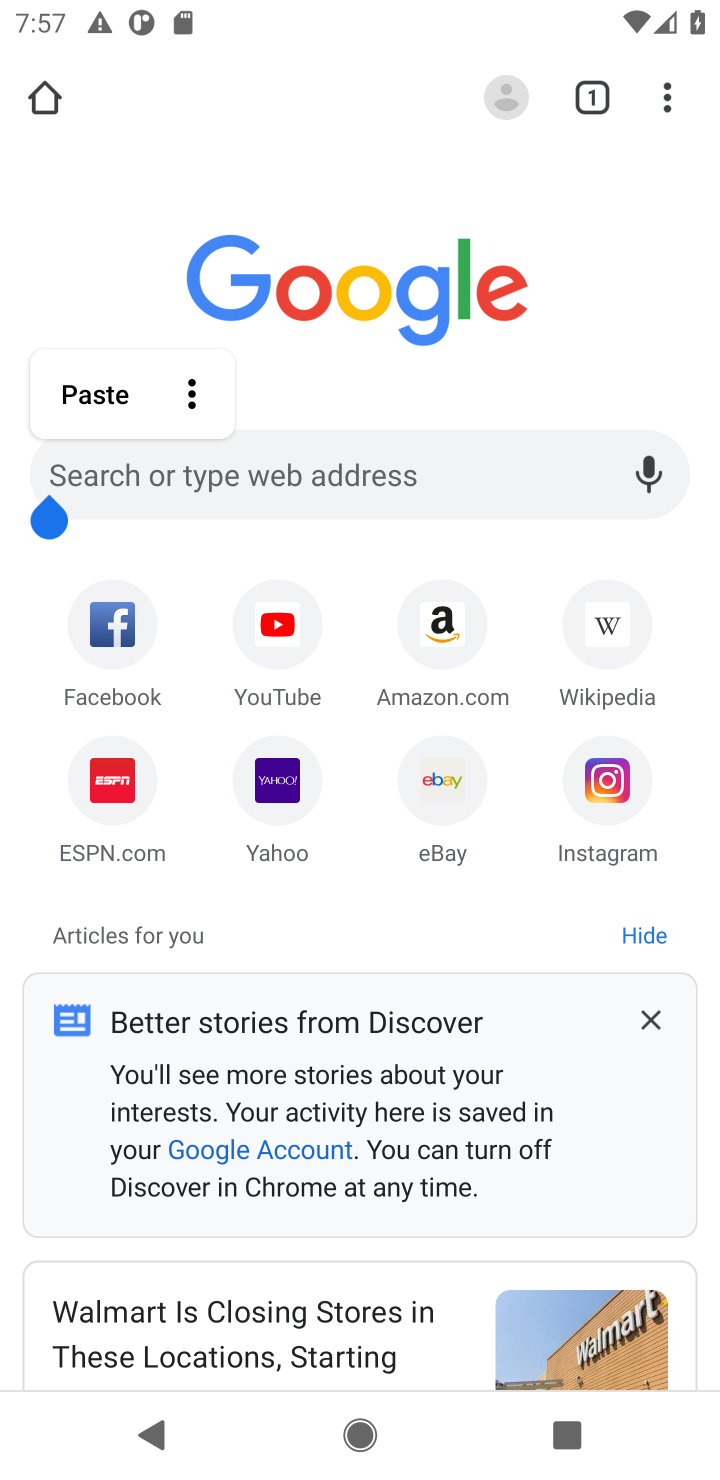
Step 31: click (313, 479)
Your task to perform on an android device: Clear the cart on ebay. Search for razer naga on ebay, select the first entry, add it to the cart, then select checkout. Image 32: 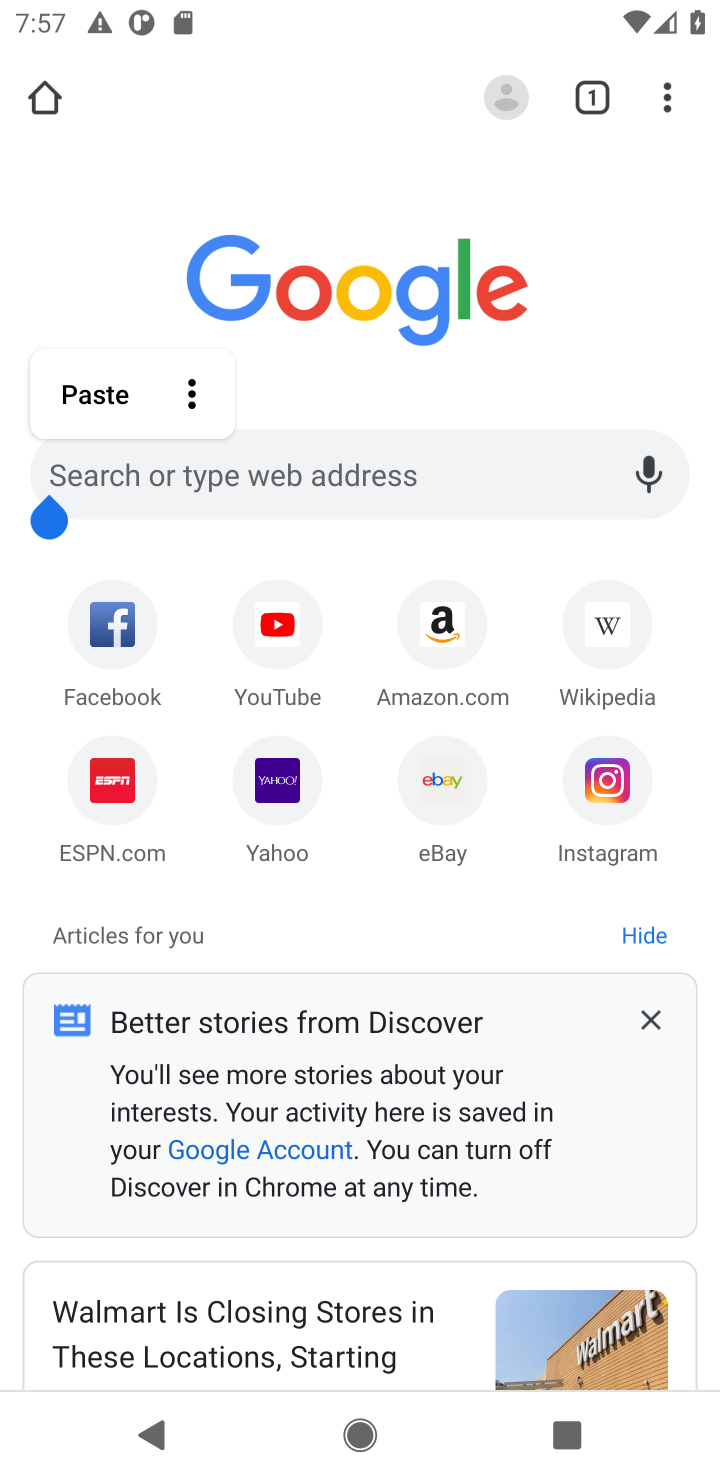
Step 32: click (173, 464)
Your task to perform on an android device: Clear the cart on ebay. Search for razer naga on ebay, select the first entry, add it to the cart, then select checkout. Image 33: 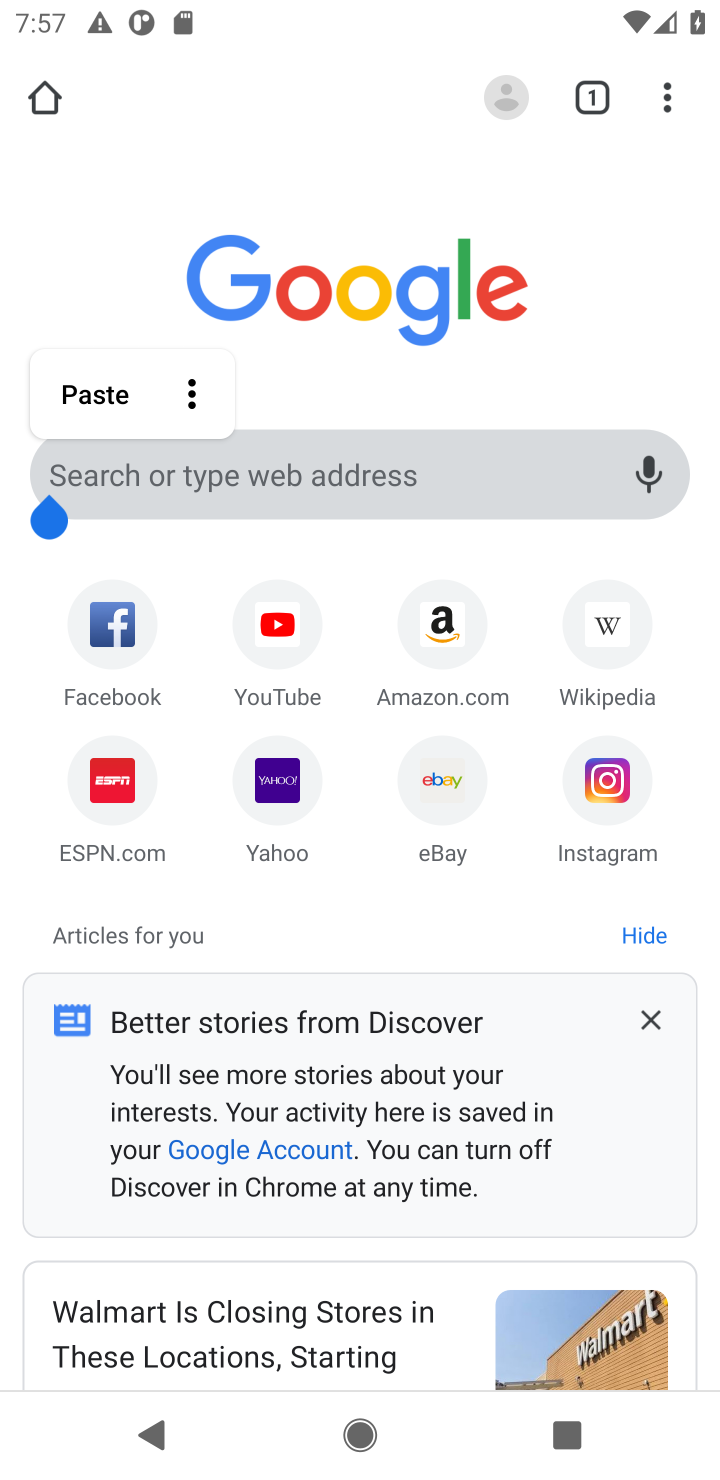
Step 33: click (43, 574)
Your task to perform on an android device: Clear the cart on ebay. Search for razer naga on ebay, select the first entry, add it to the cart, then select checkout. Image 34: 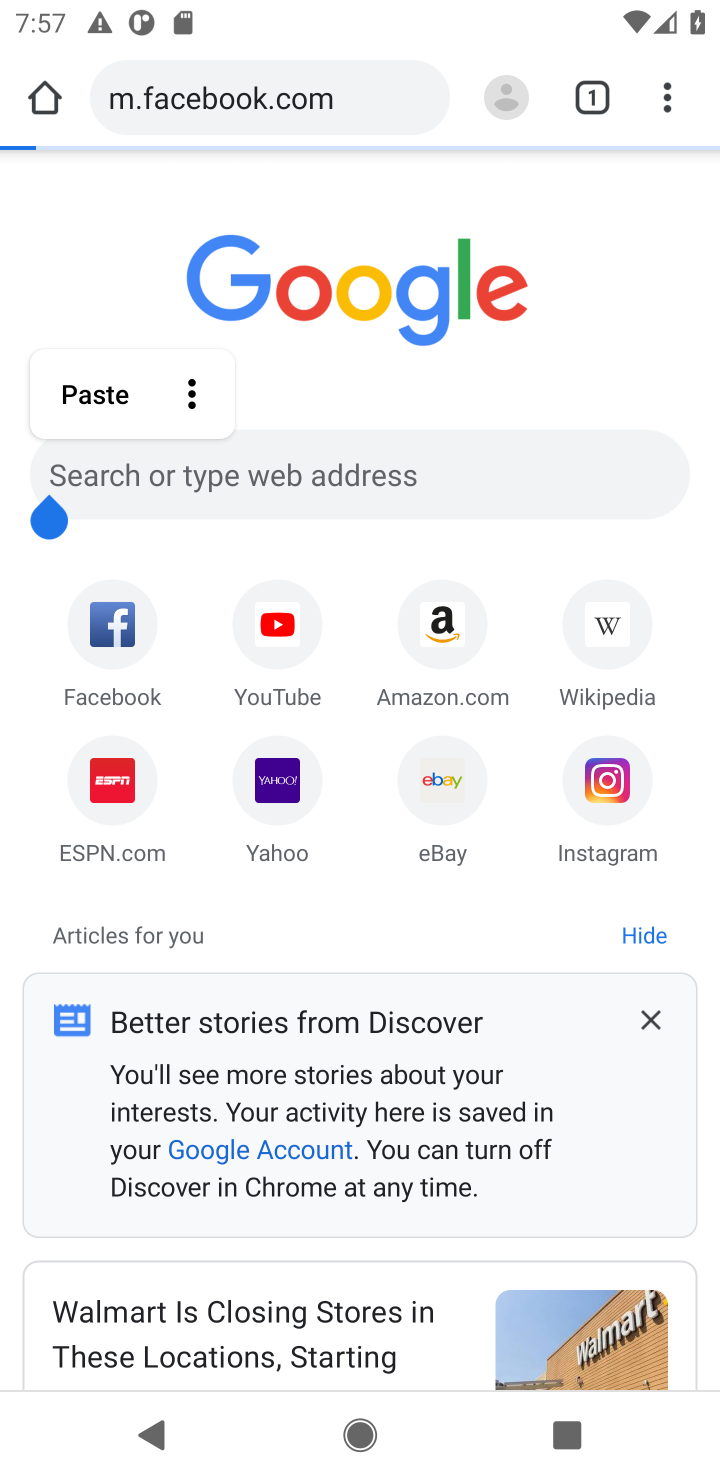
Step 34: click (43, 574)
Your task to perform on an android device: Clear the cart on ebay. Search for razer naga on ebay, select the first entry, add it to the cart, then select checkout. Image 35: 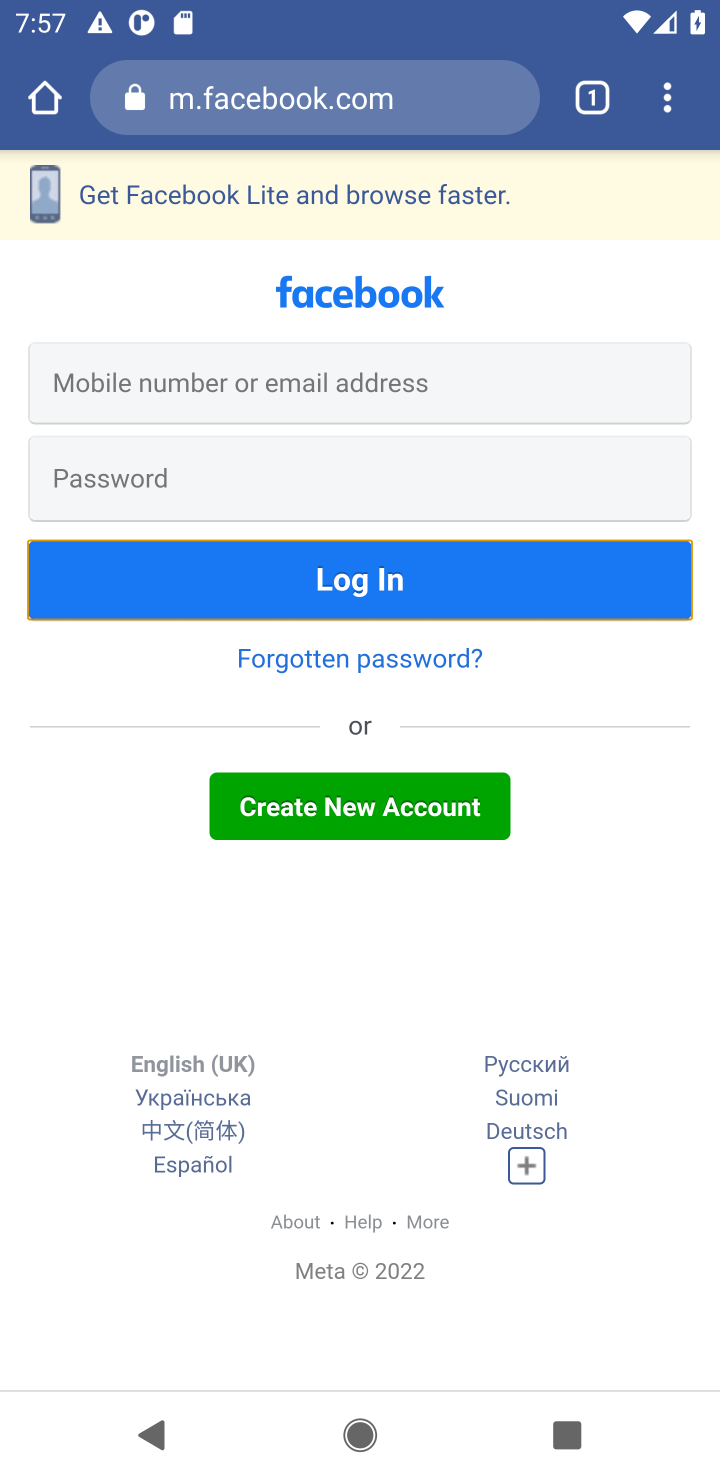
Step 35: click (303, 114)
Your task to perform on an android device: Clear the cart on ebay. Search for razer naga on ebay, select the first entry, add it to the cart, then select checkout. Image 36: 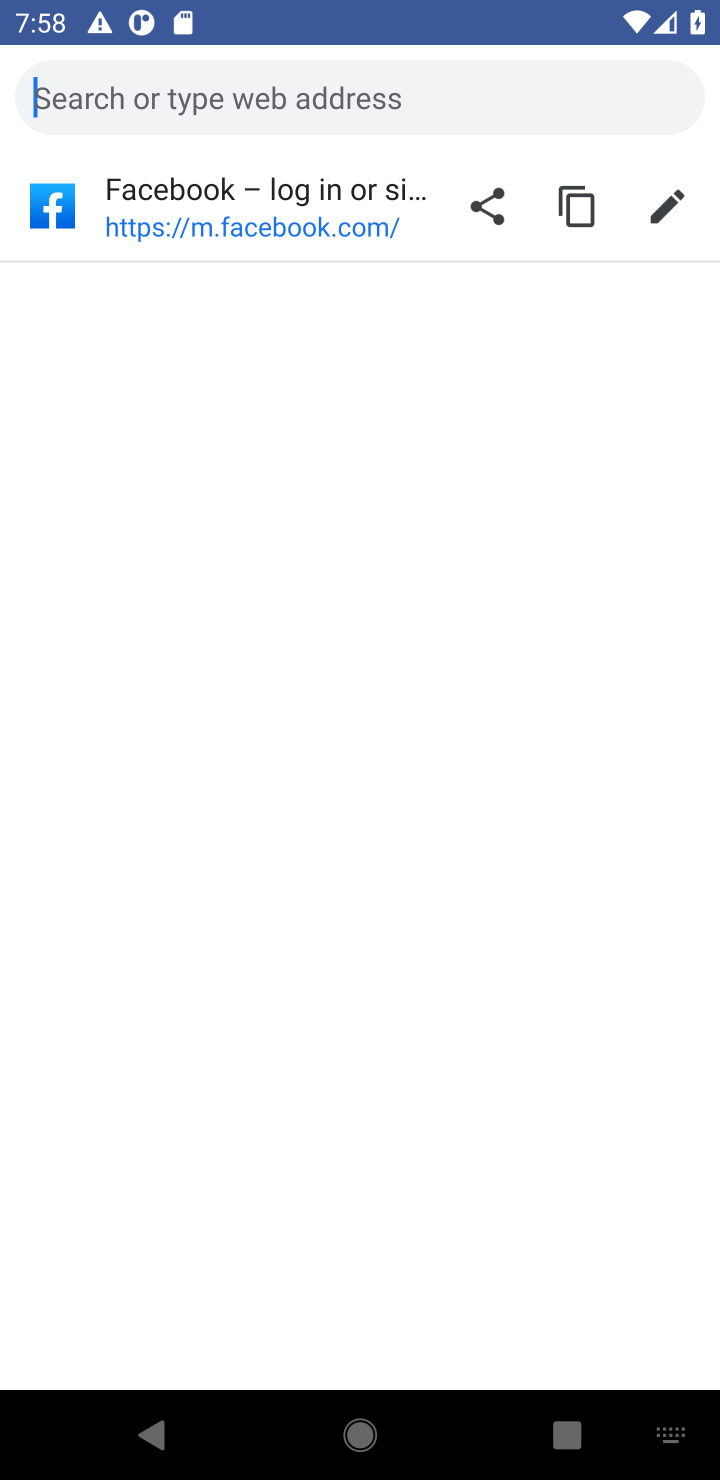
Step 36: type "ebay"
Your task to perform on an android device: Clear the cart on ebay. Search for razer naga on ebay, select the first entry, add it to the cart, then select checkout. Image 37: 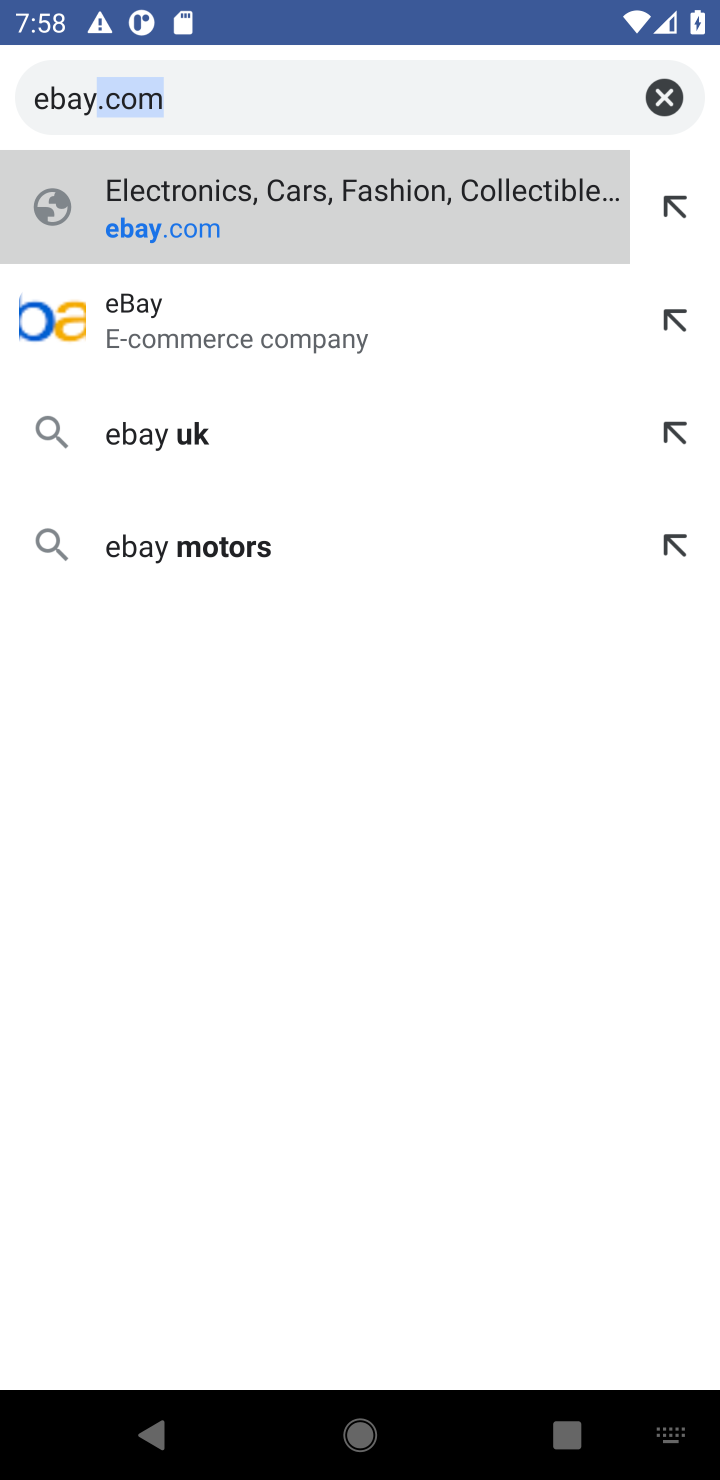
Step 37: press enter
Your task to perform on an android device: Clear the cart on ebay. Search for razer naga on ebay, select the first entry, add it to the cart, then select checkout. Image 38: 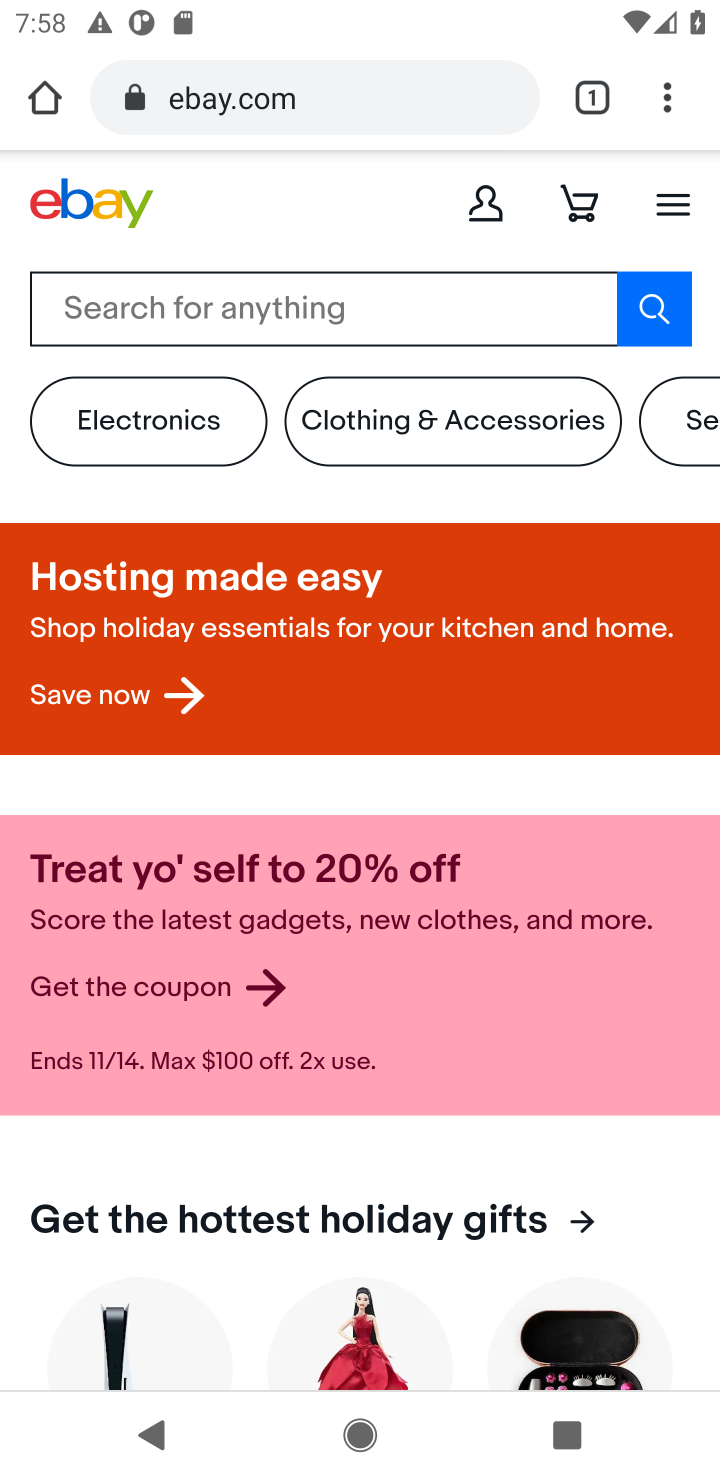
Step 38: press enter
Your task to perform on an android device: Clear the cart on ebay. Search for razer naga on ebay, select the first entry, add it to the cart, then select checkout. Image 39: 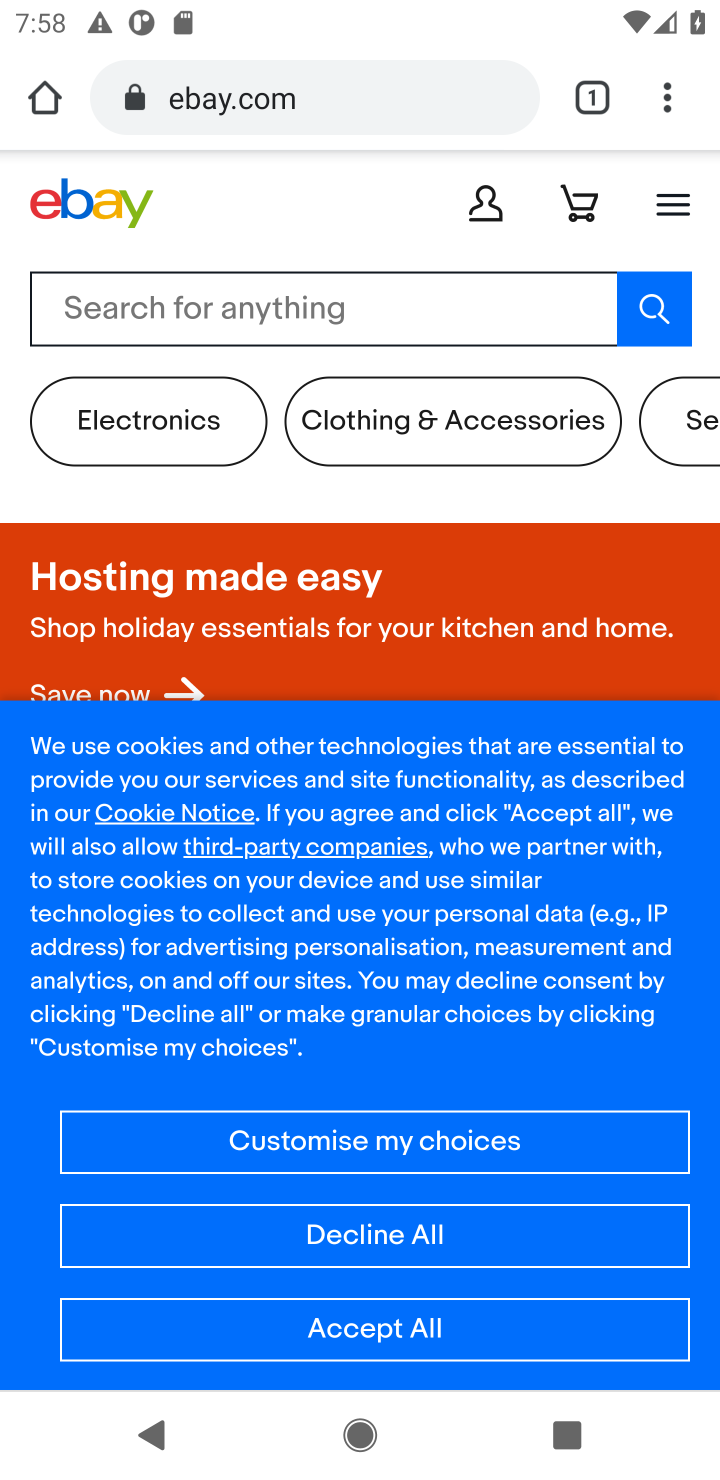
Step 39: click (387, 1238)
Your task to perform on an android device: Clear the cart on ebay. Search for razer naga on ebay, select the first entry, add it to the cart, then select checkout. Image 40: 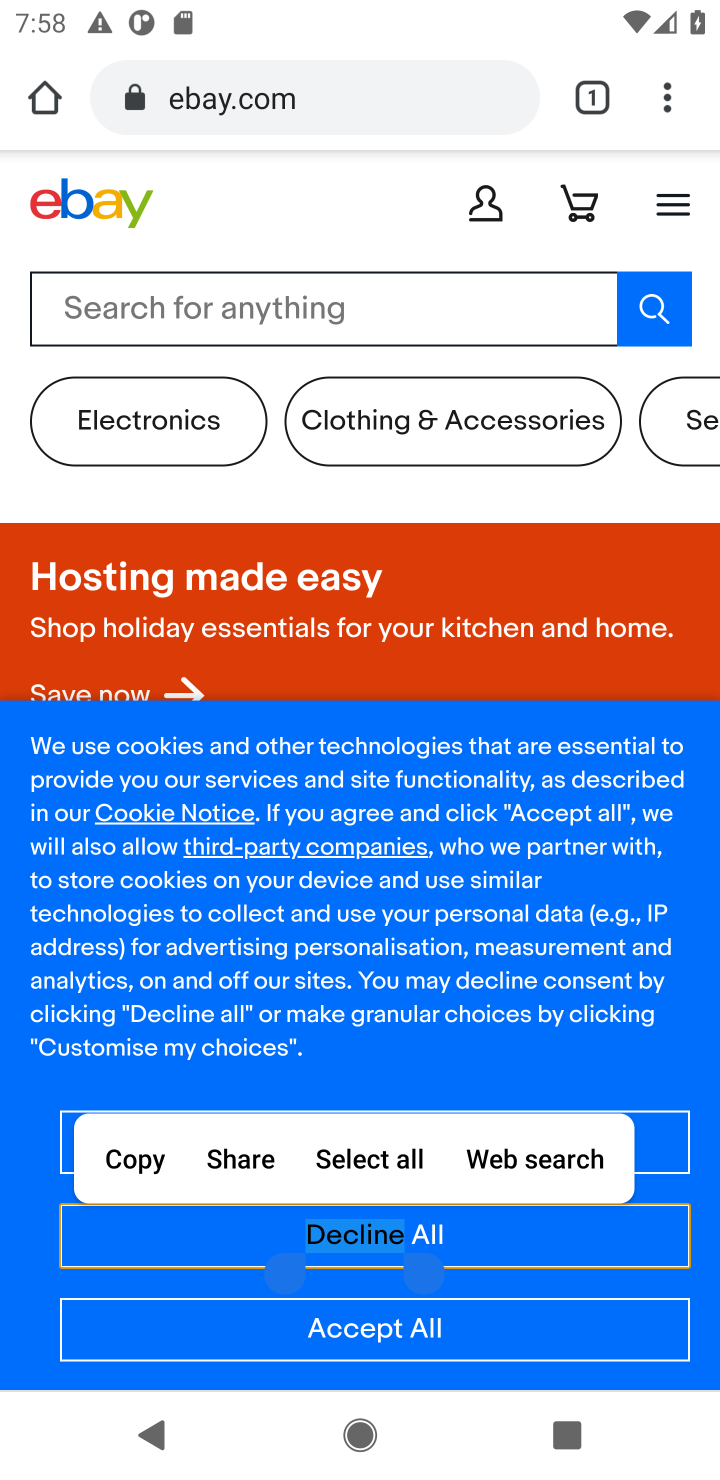
Step 40: drag from (439, 1479) to (655, 1067)
Your task to perform on an android device: Clear the cart on ebay. Search for razer naga on ebay, select the first entry, add it to the cart, then select checkout. Image 41: 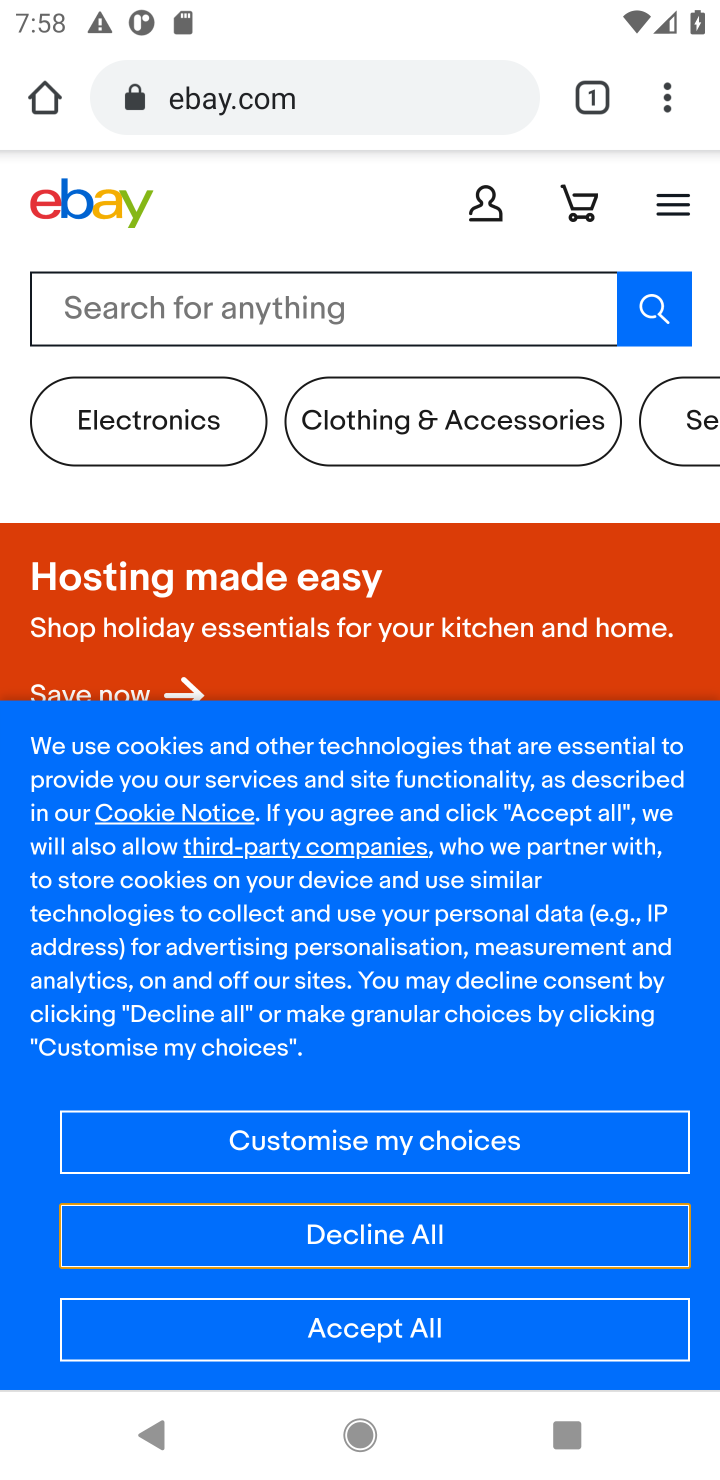
Step 41: click (368, 1239)
Your task to perform on an android device: Clear the cart on ebay. Search for razer naga on ebay, select the first entry, add it to the cart, then select checkout. Image 42: 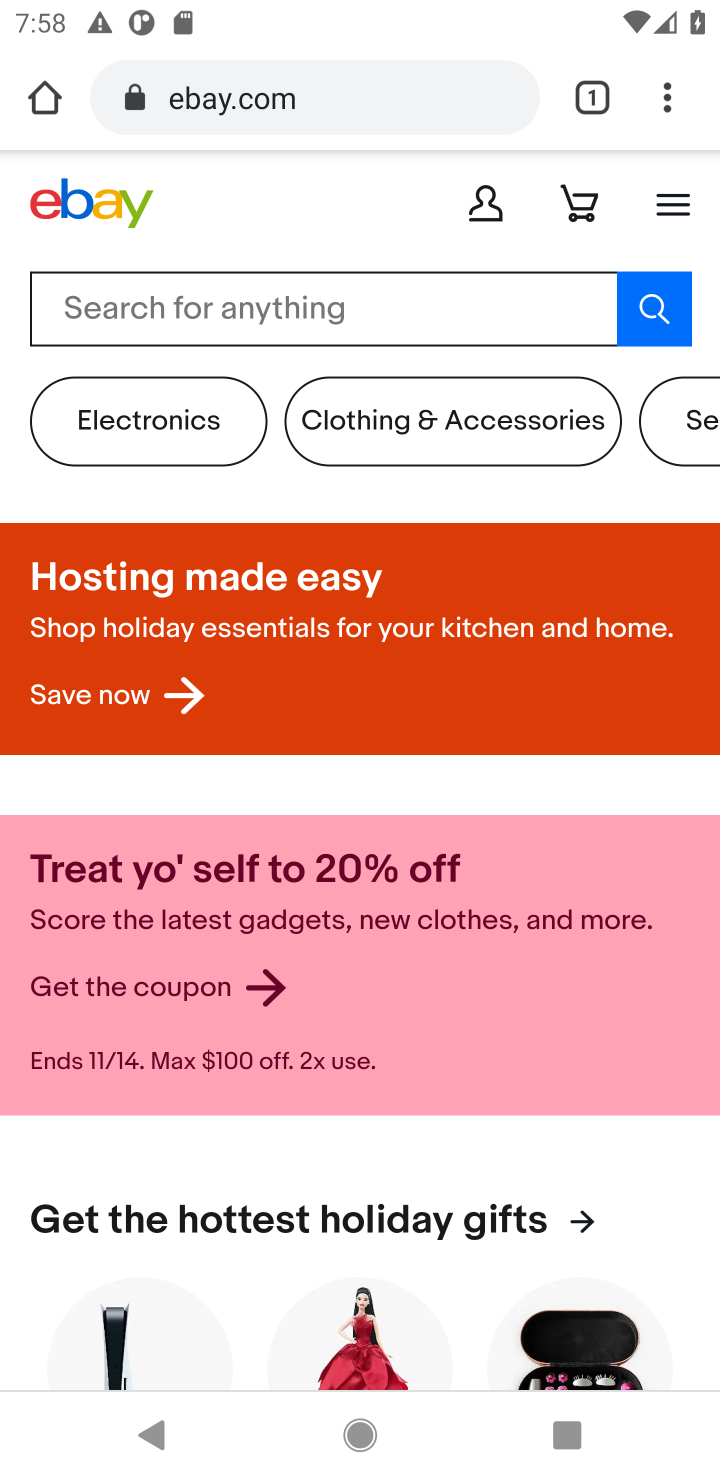
Step 42: click (200, 294)
Your task to perform on an android device: Clear the cart on ebay. Search for razer naga on ebay, select the first entry, add it to the cart, then select checkout. Image 43: 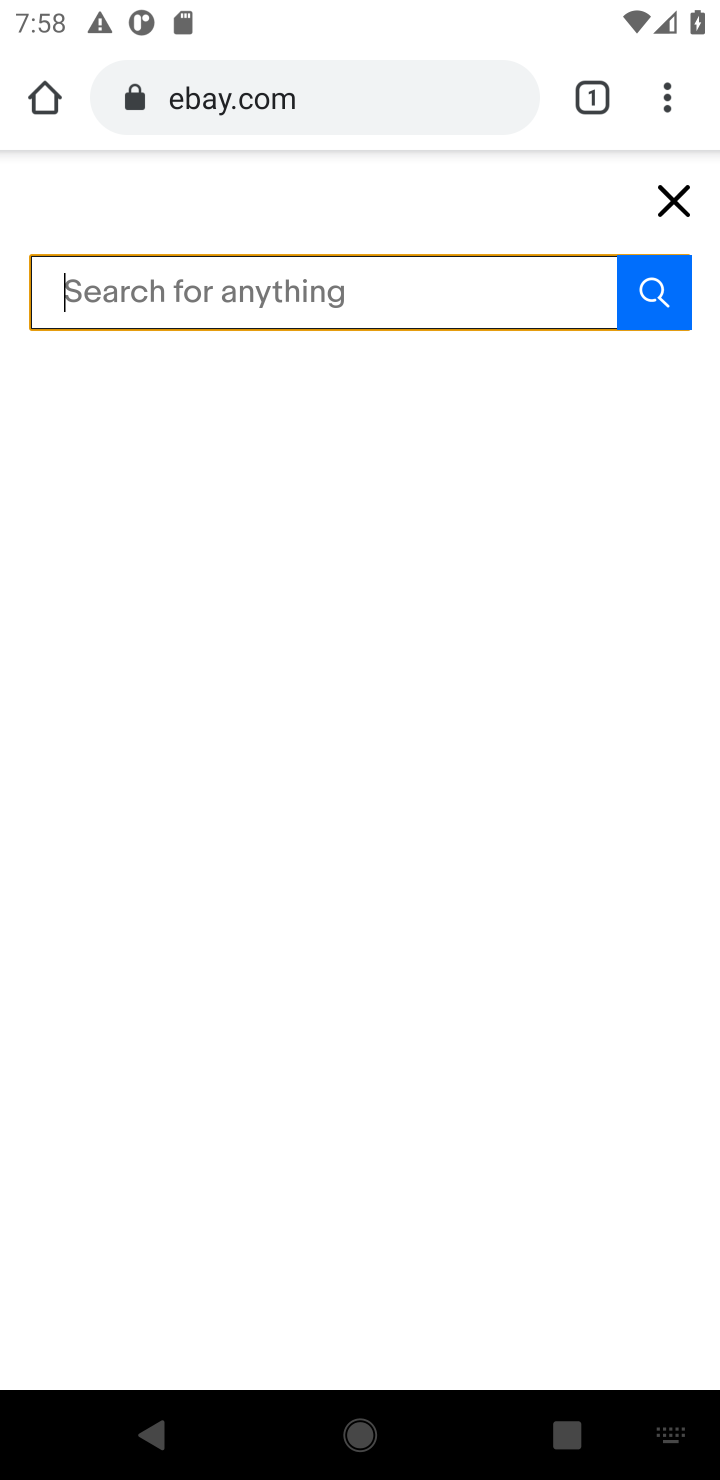
Step 43: type "razer naga"
Your task to perform on an android device: Clear the cart on ebay. Search for razer naga on ebay, select the first entry, add it to the cart, then select checkout. Image 44: 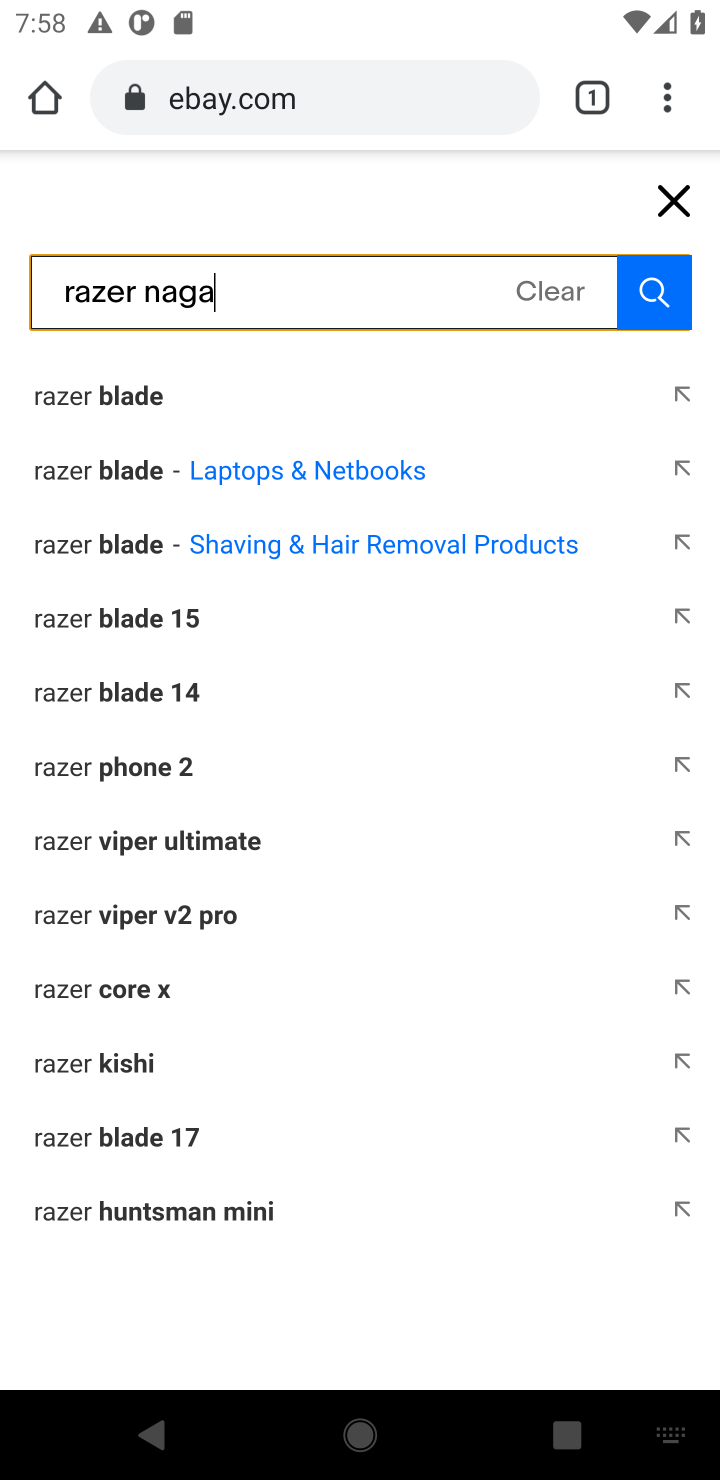
Step 44: click (650, 324)
Your task to perform on an android device: Clear the cart on ebay. Search for razer naga on ebay, select the first entry, add it to the cart, then select checkout. Image 45: 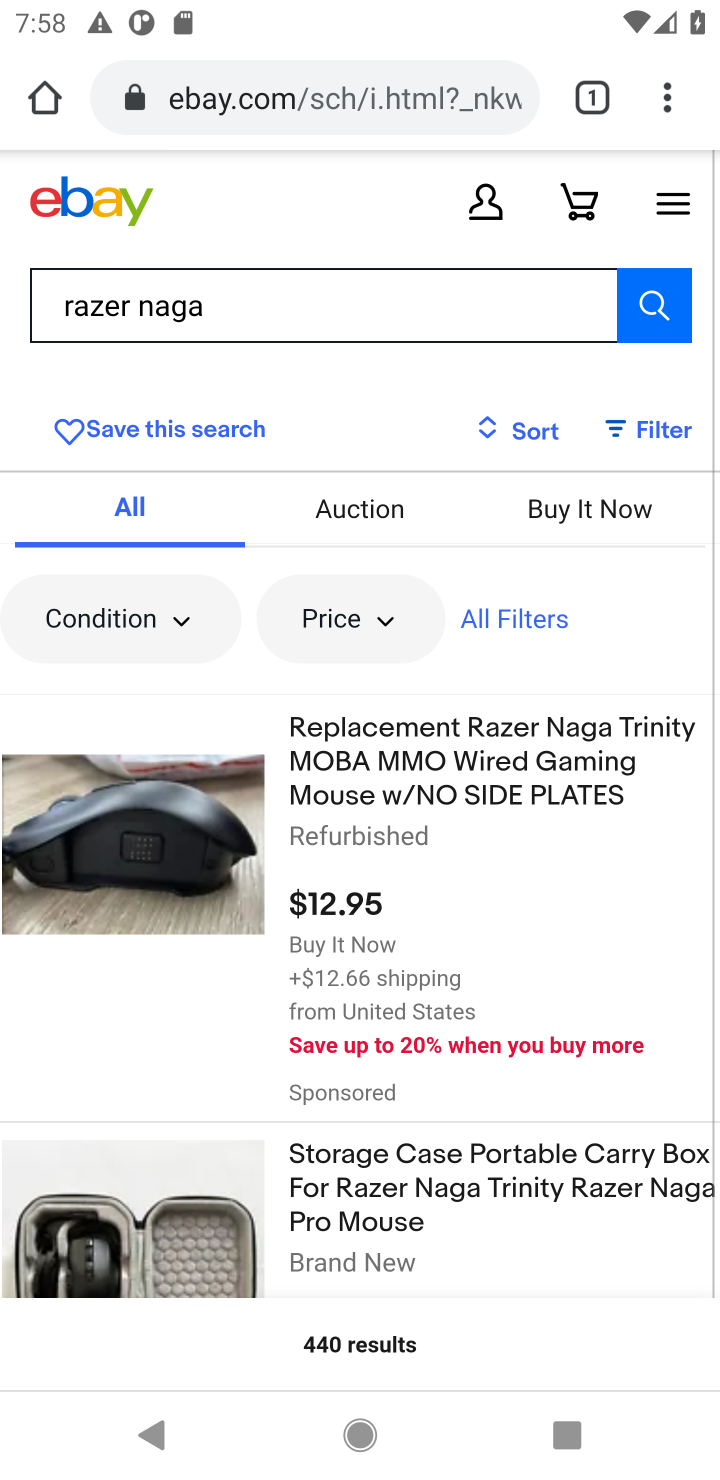
Step 45: click (490, 764)
Your task to perform on an android device: Clear the cart on ebay. Search for razer naga on ebay, select the first entry, add it to the cart, then select checkout. Image 46: 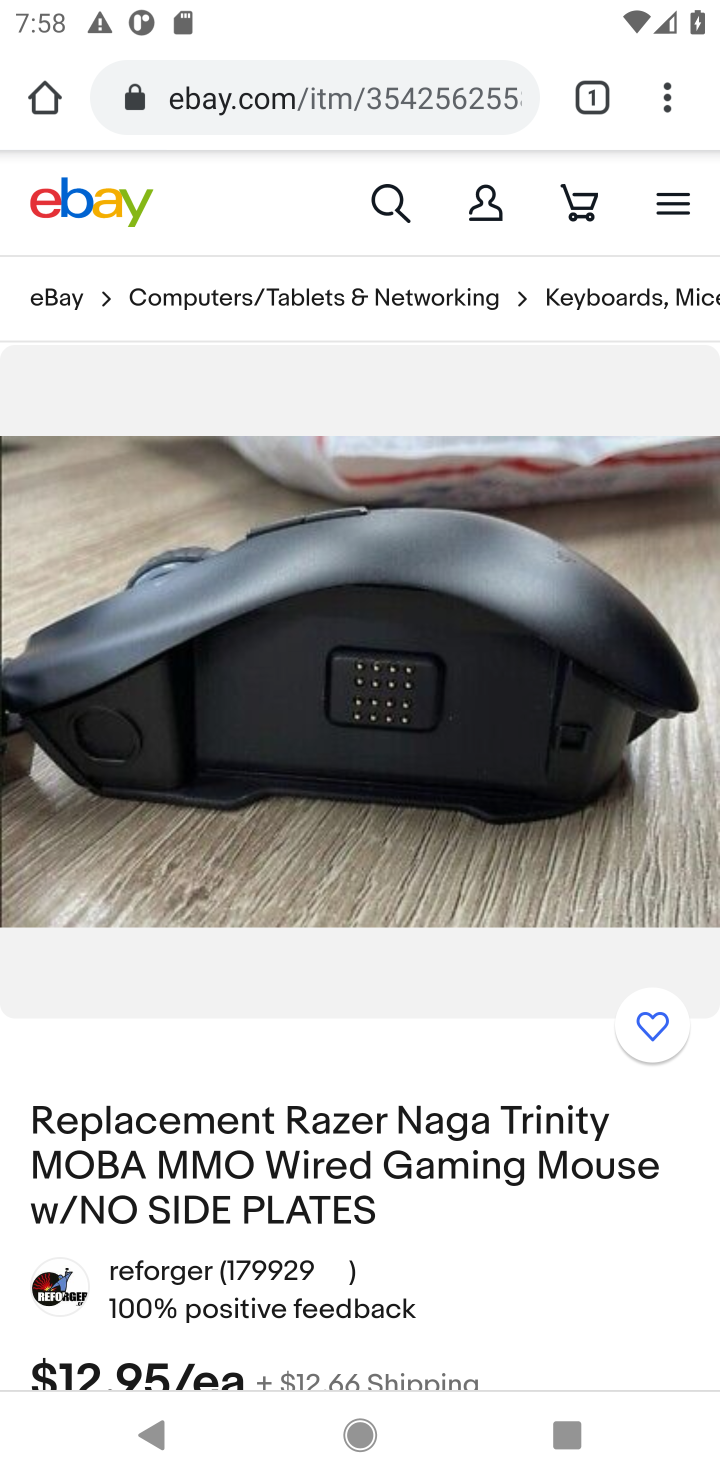
Step 46: drag from (447, 904) to (331, 559)
Your task to perform on an android device: Clear the cart on ebay. Search for razer naga on ebay, select the first entry, add it to the cart, then select checkout. Image 47: 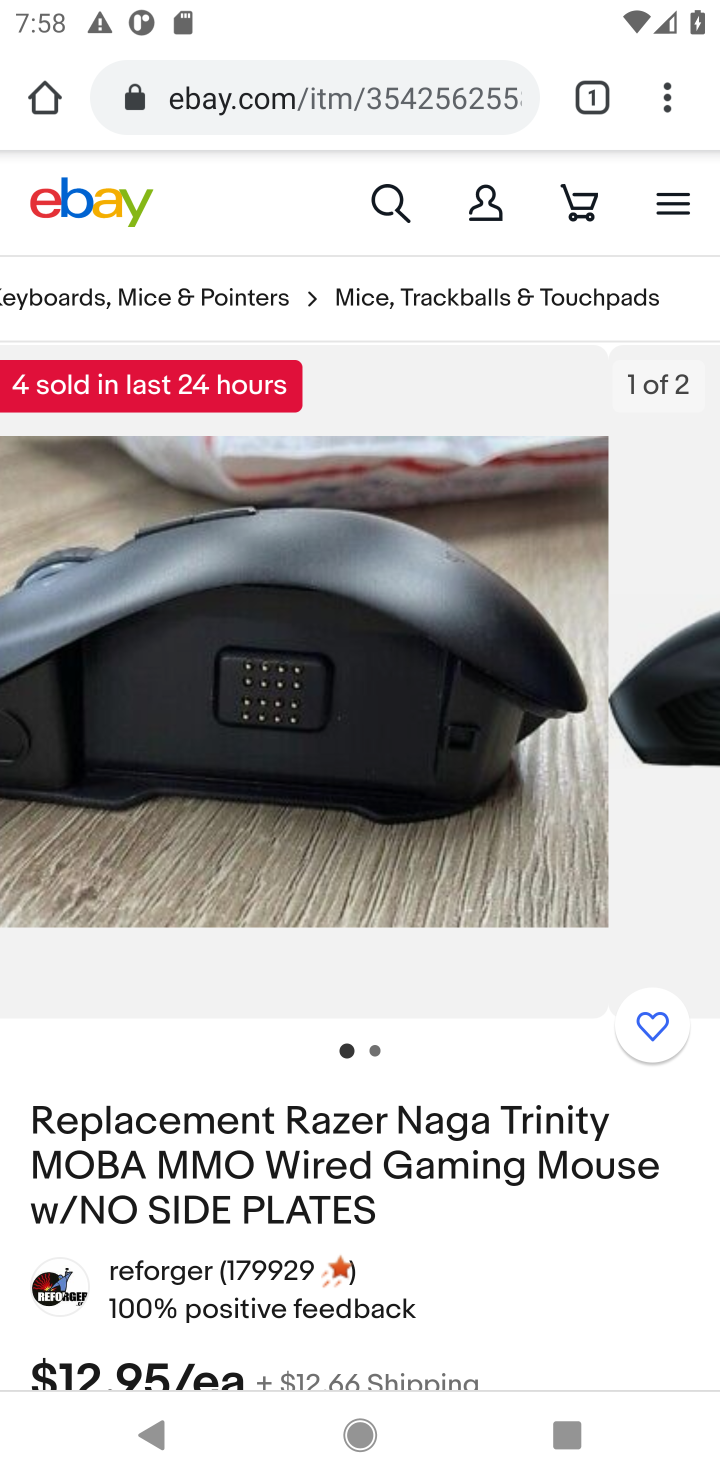
Step 47: drag from (520, 1305) to (409, 600)
Your task to perform on an android device: Clear the cart on ebay. Search for razer naga on ebay, select the first entry, add it to the cart, then select checkout. Image 48: 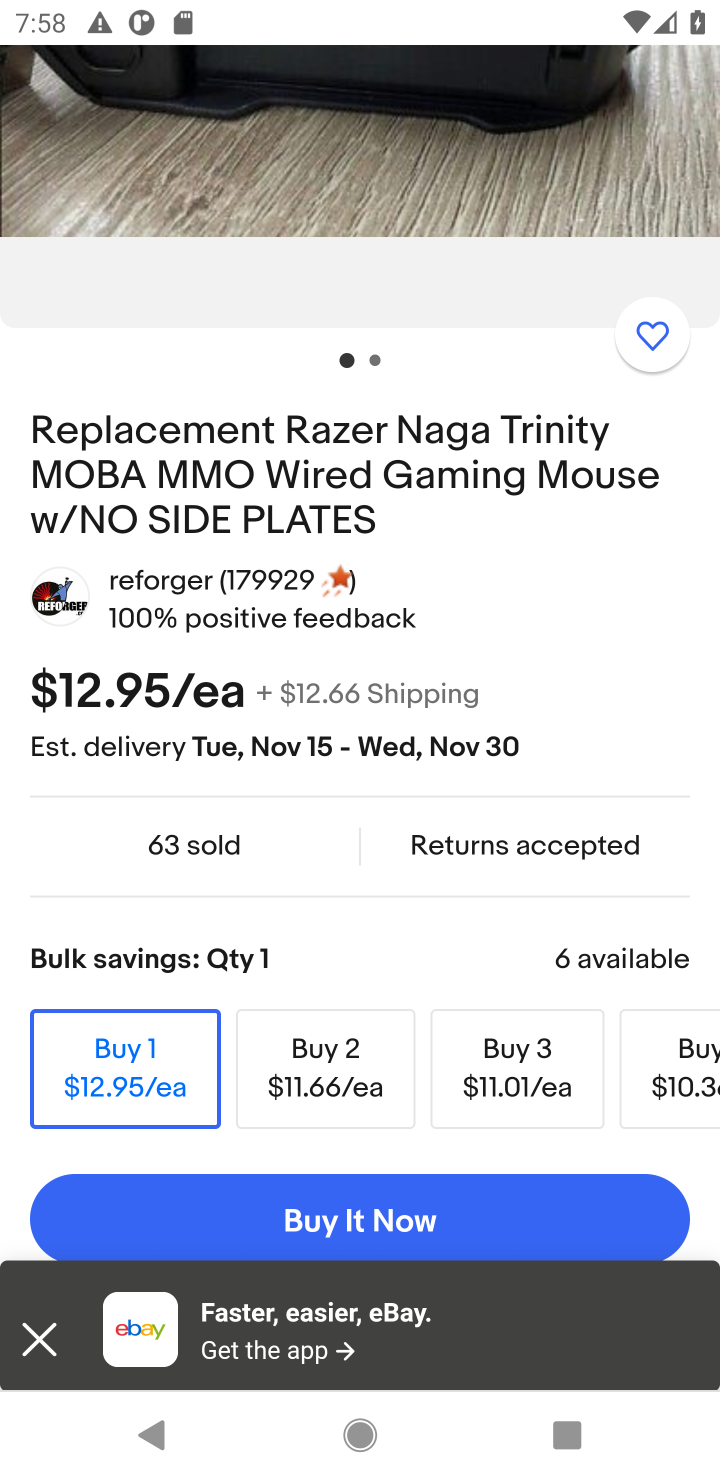
Step 48: drag from (521, 1047) to (455, 635)
Your task to perform on an android device: Clear the cart on ebay. Search for razer naga on ebay, select the first entry, add it to the cart, then select checkout. Image 49: 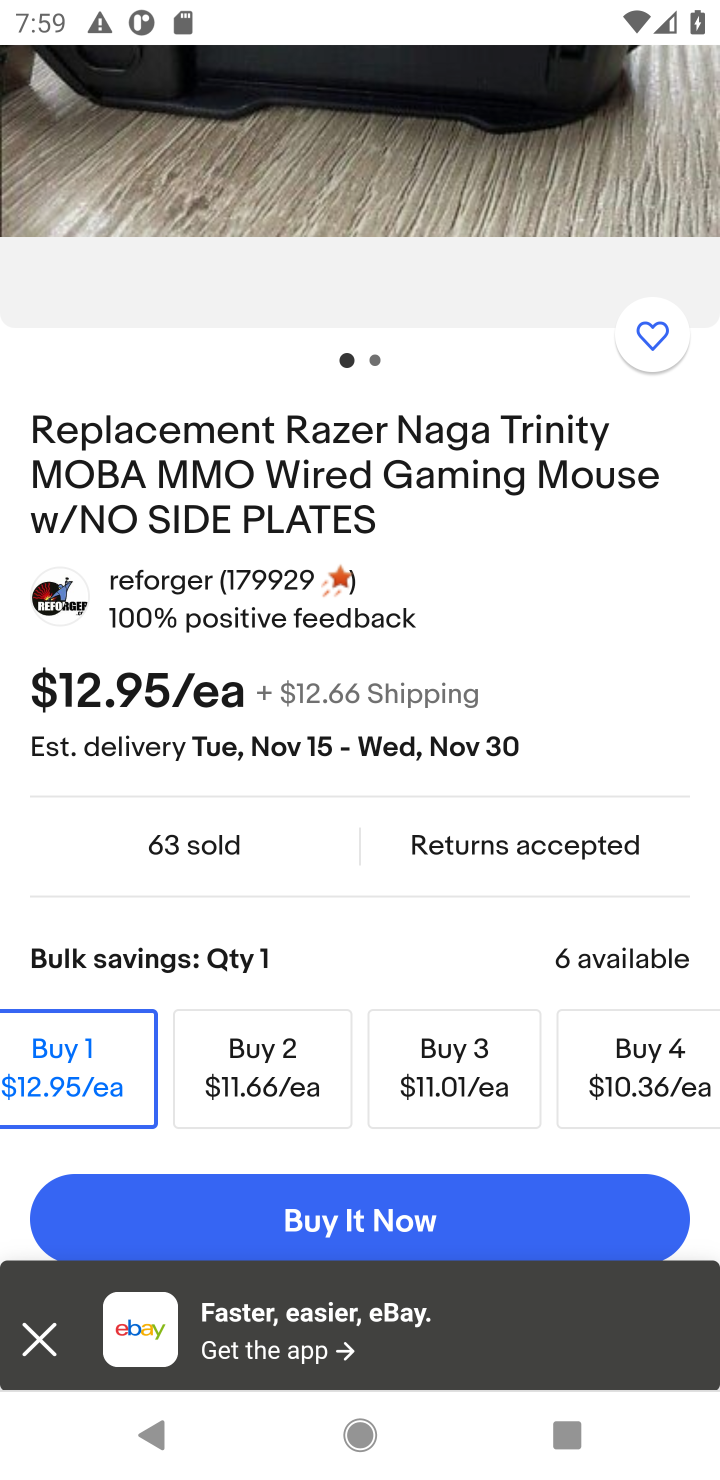
Step 49: drag from (605, 790) to (589, 562)
Your task to perform on an android device: Clear the cart on ebay. Search for razer naga on ebay, select the first entry, add it to the cart, then select checkout. Image 50: 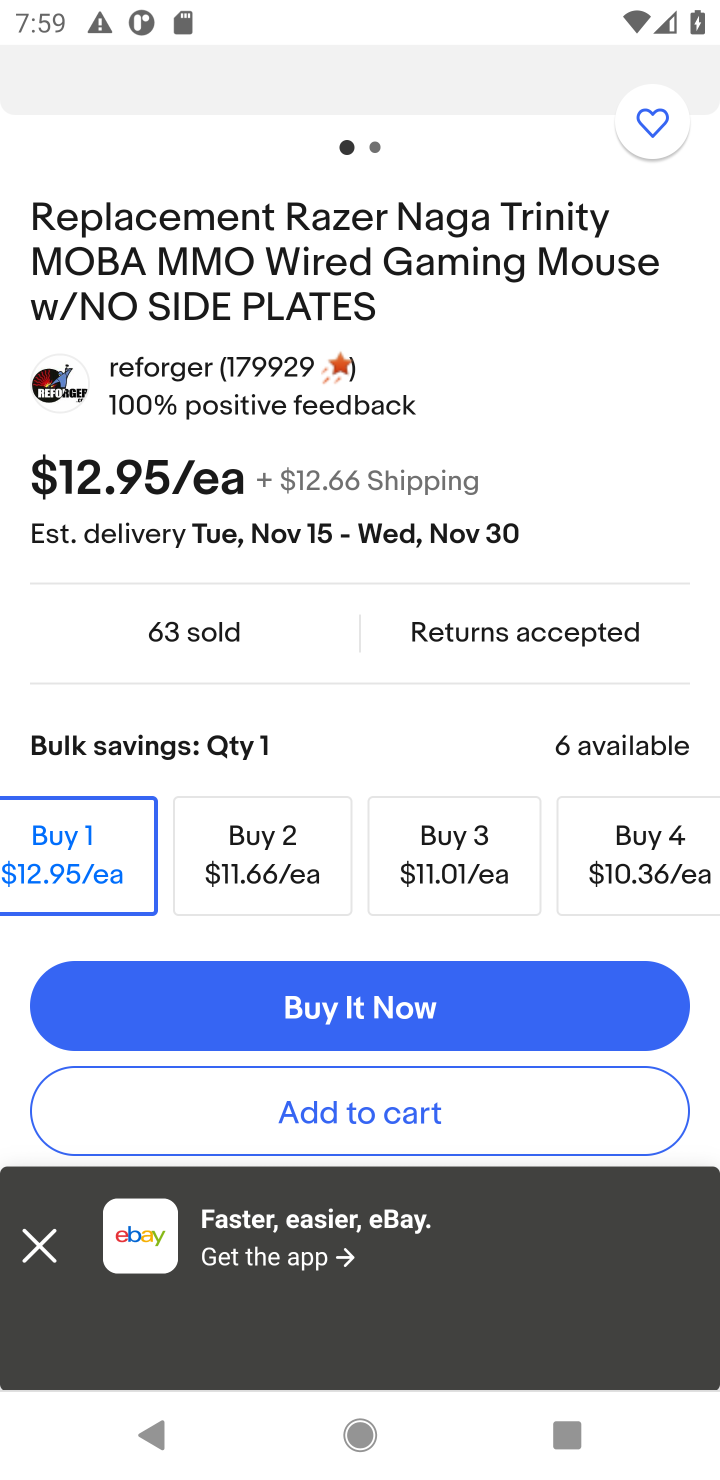
Step 50: click (346, 1114)
Your task to perform on an android device: Clear the cart on ebay. Search for razer naga on ebay, select the first entry, add it to the cart, then select checkout. Image 51: 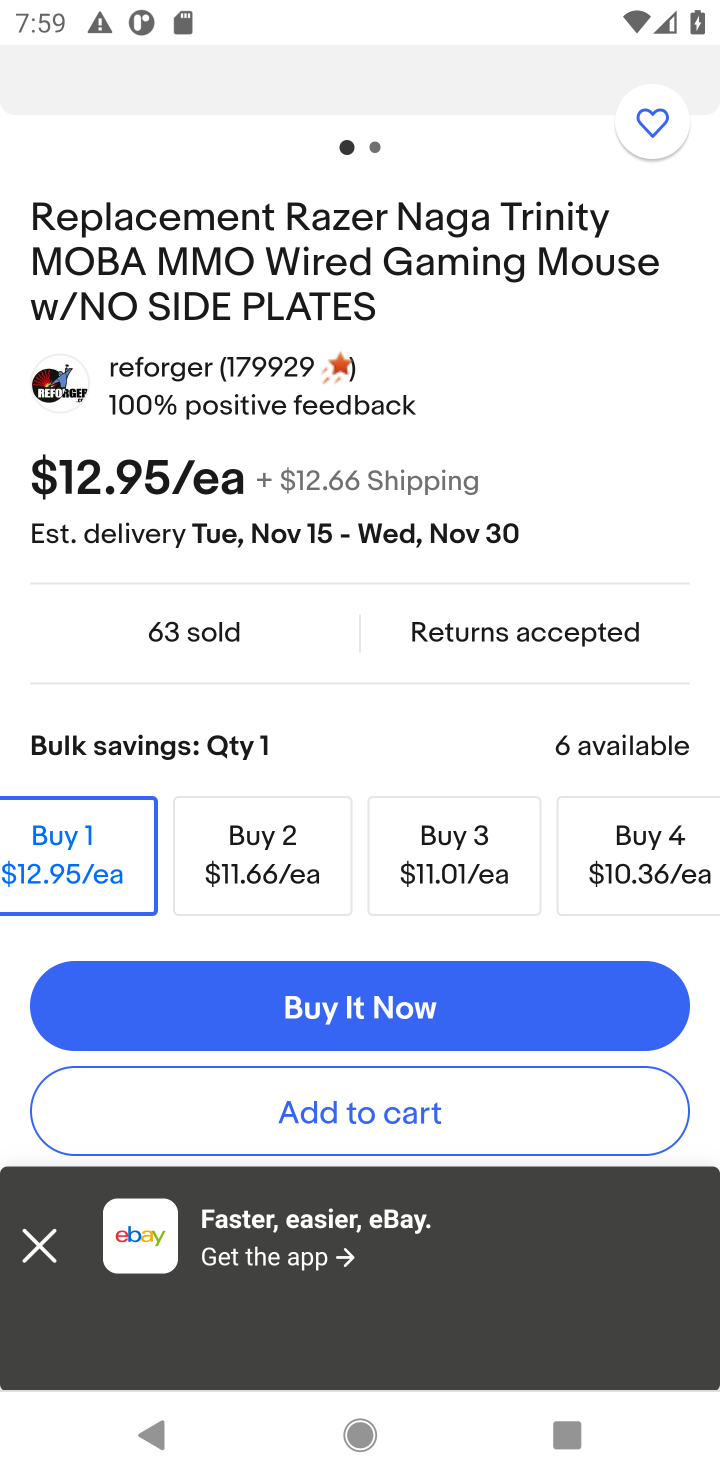
Step 51: click (43, 1243)
Your task to perform on an android device: Clear the cart on ebay. Search for razer naga on ebay, select the first entry, add it to the cart, then select checkout. Image 52: 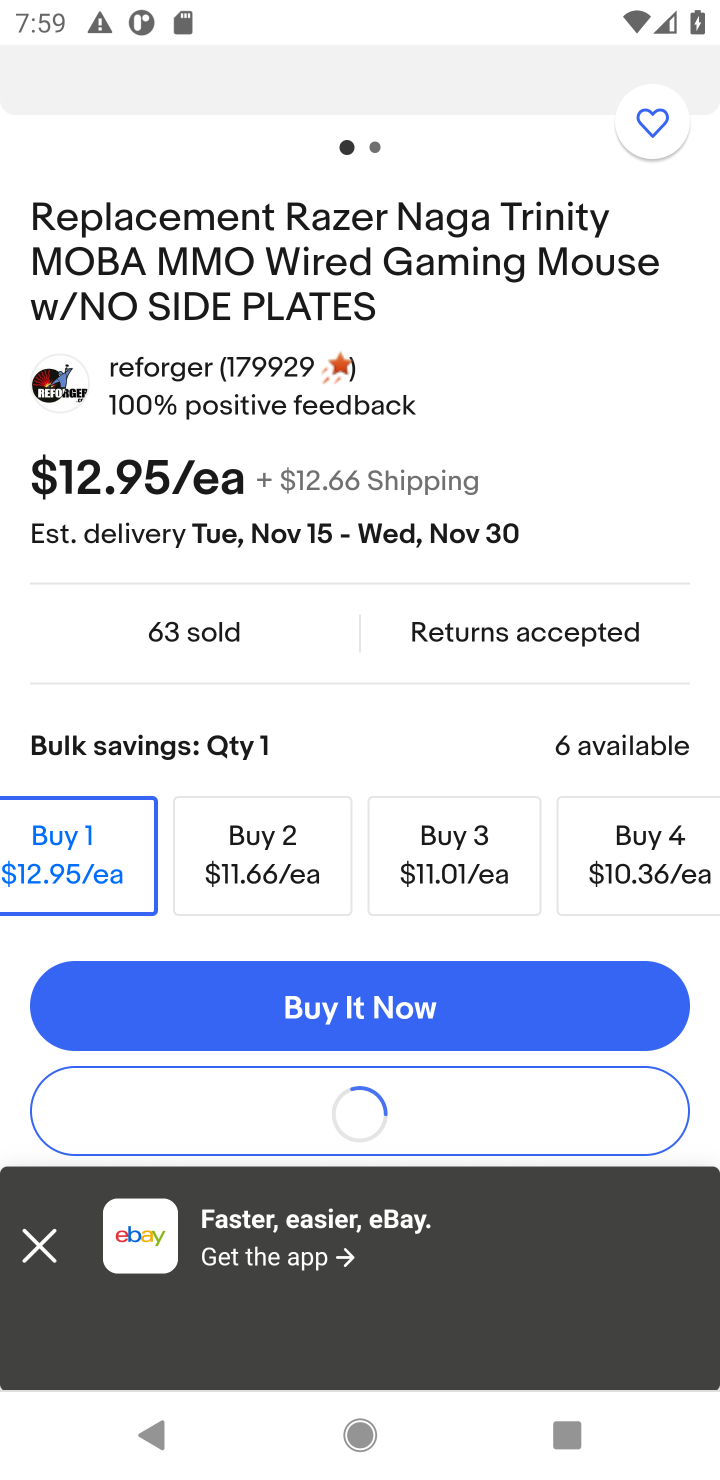
Step 52: click (349, 1119)
Your task to perform on an android device: Clear the cart on ebay. Search for razer naga on ebay, select the first entry, add it to the cart, then select checkout. Image 53: 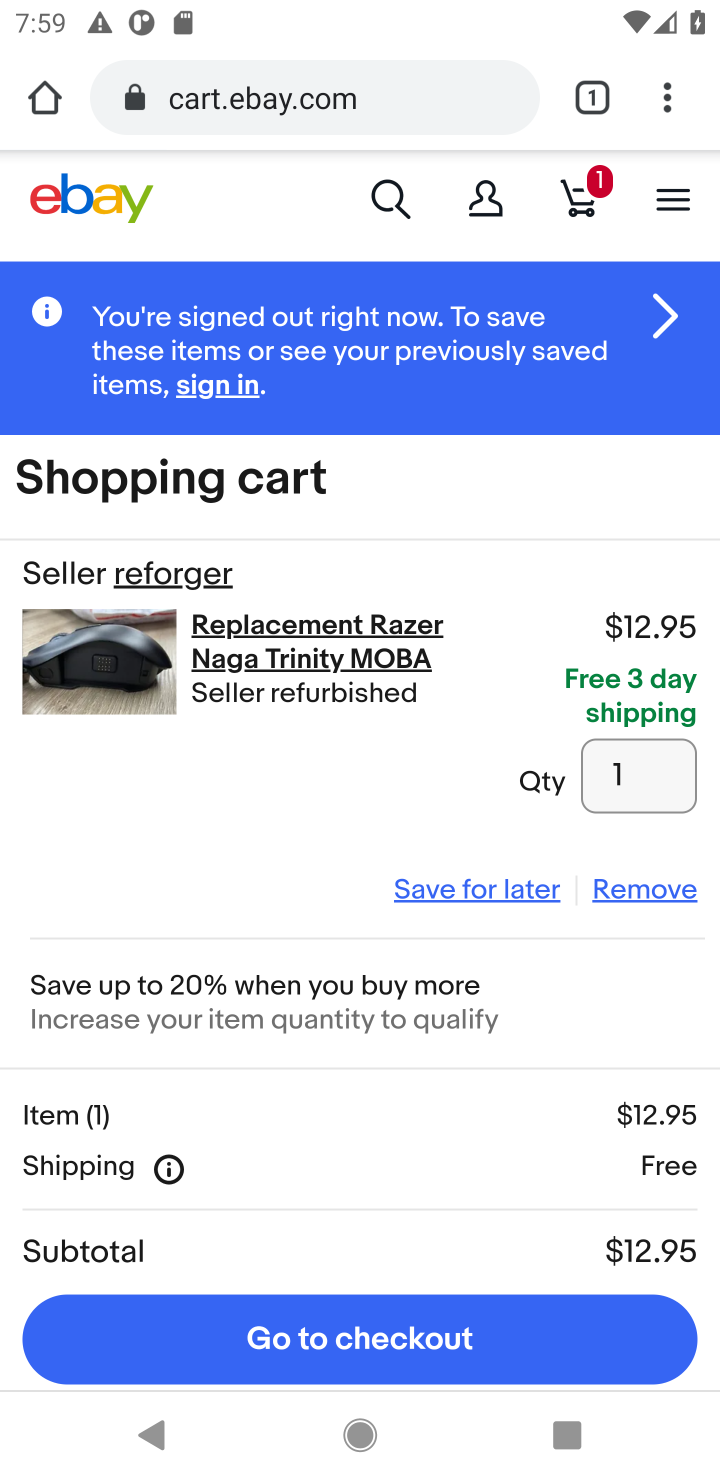
Step 53: click (445, 1377)
Your task to perform on an android device: Clear the cart on ebay. Search for razer naga on ebay, select the first entry, add it to the cart, then select checkout. Image 54: 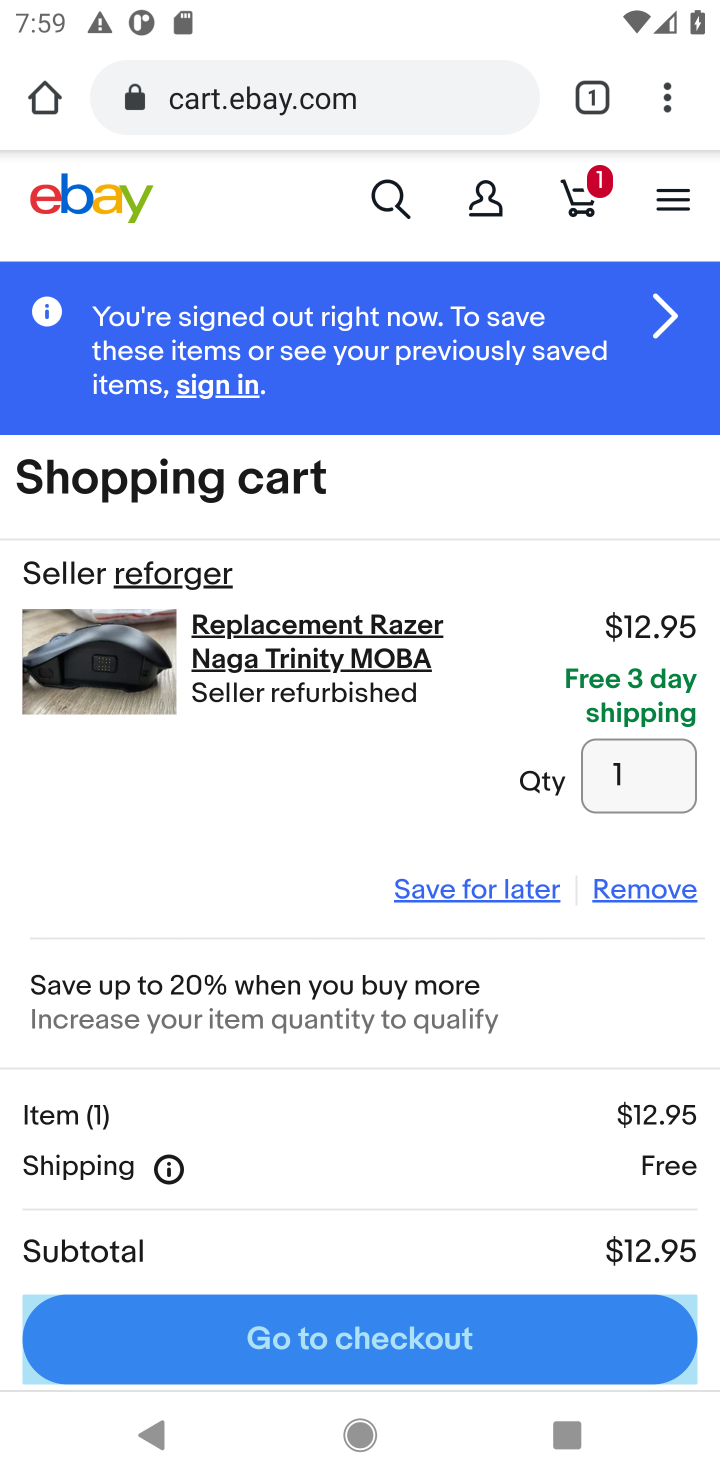
Step 54: click (425, 1354)
Your task to perform on an android device: Clear the cart on ebay. Search for razer naga on ebay, select the first entry, add it to the cart, then select checkout. Image 55: 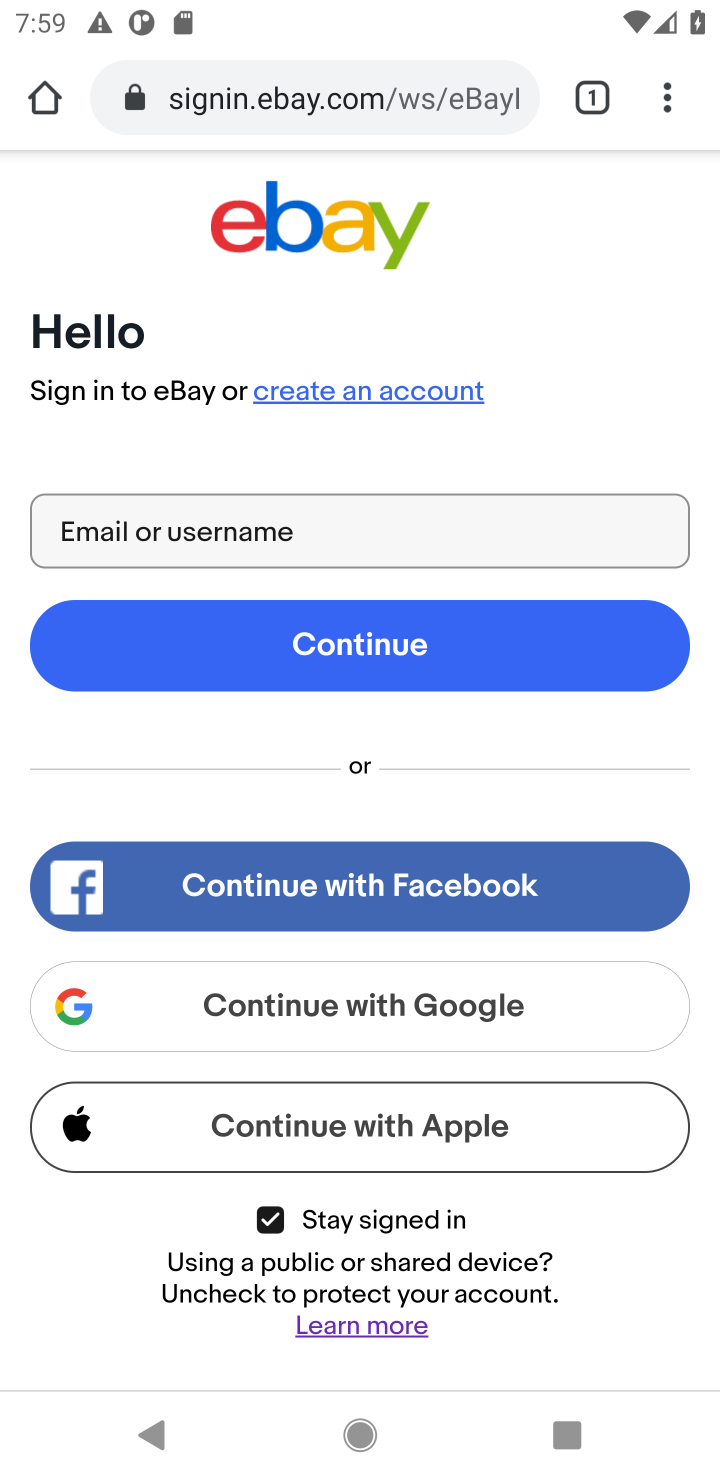
Step 55: task complete